Your task to perform on an android device: Where can I buy a nice beach chair? Image 0: 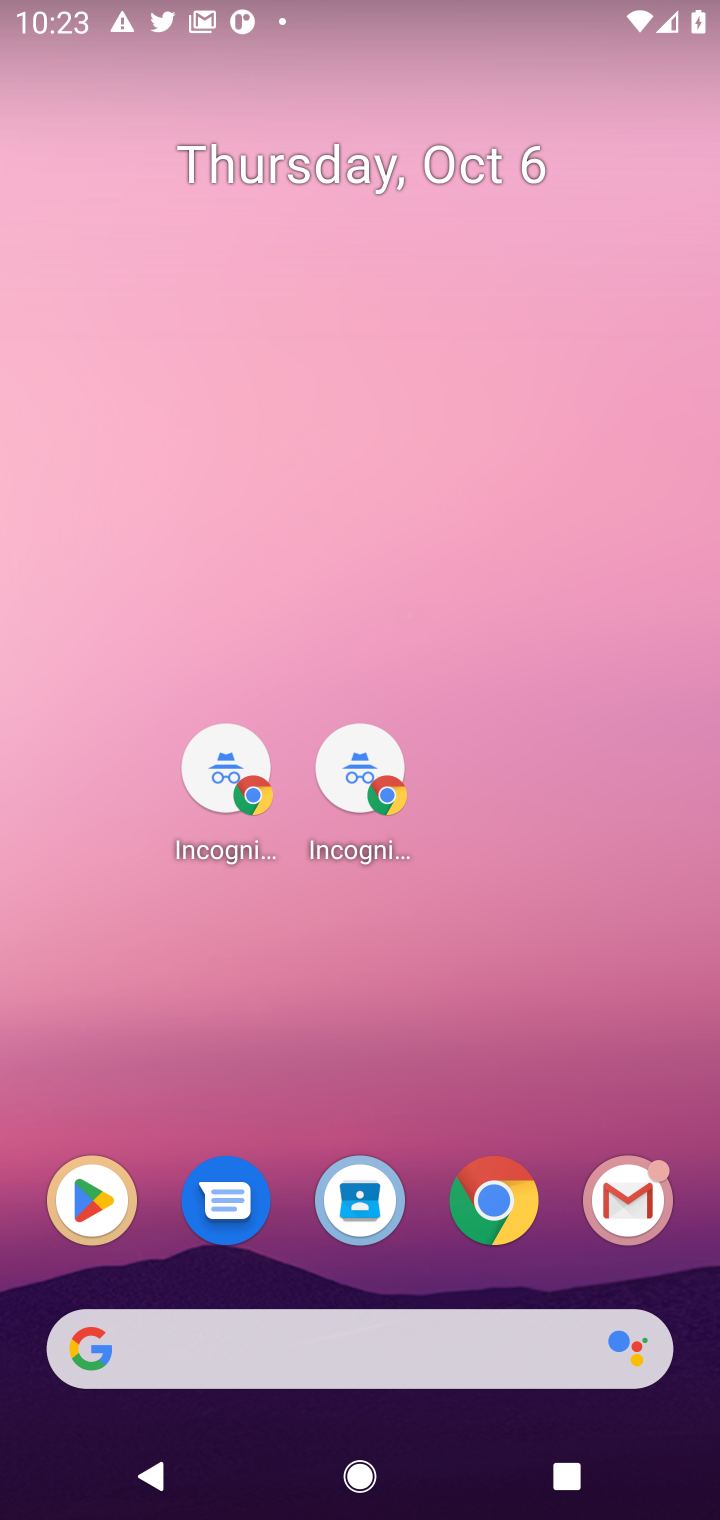
Step 0: click (523, 1214)
Your task to perform on an android device: Where can I buy a nice beach chair? Image 1: 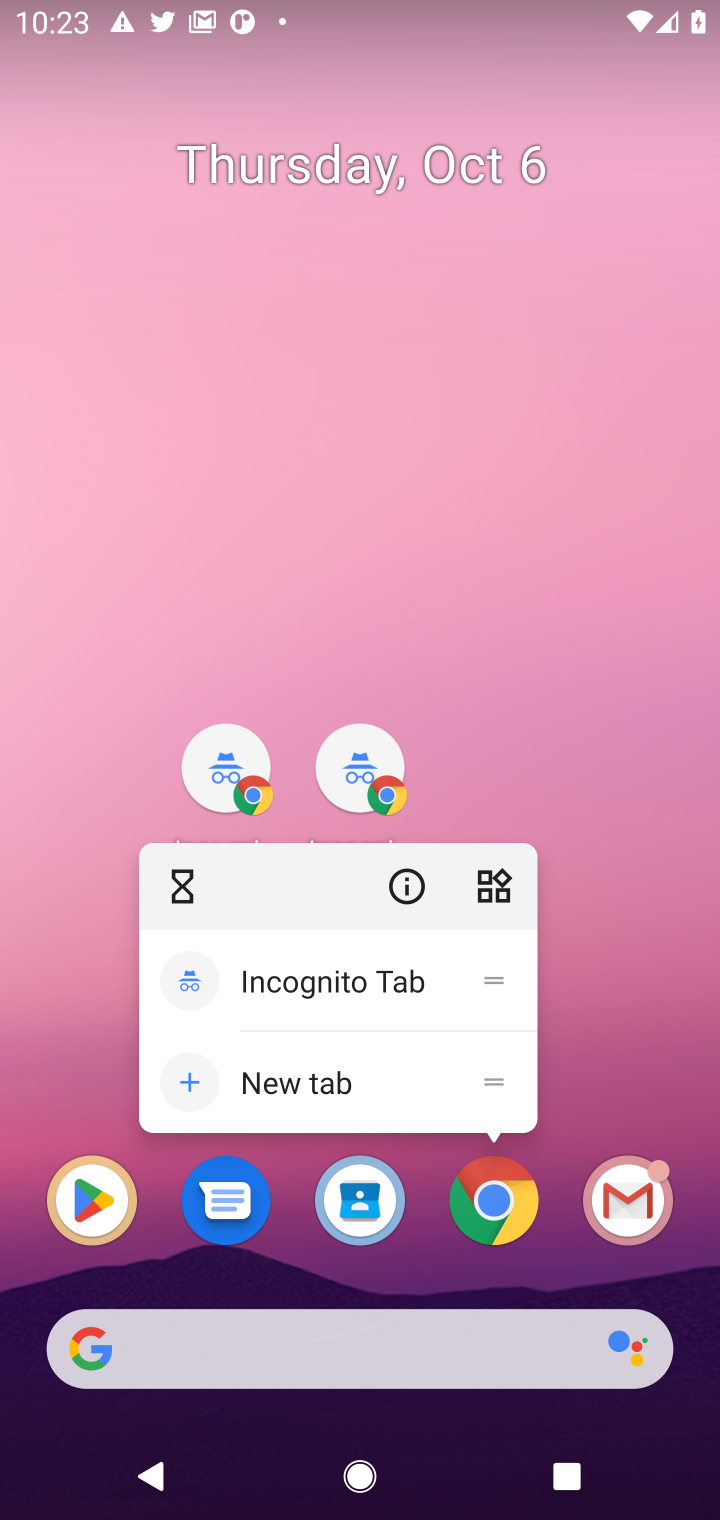
Step 1: press home button
Your task to perform on an android device: Where can I buy a nice beach chair? Image 2: 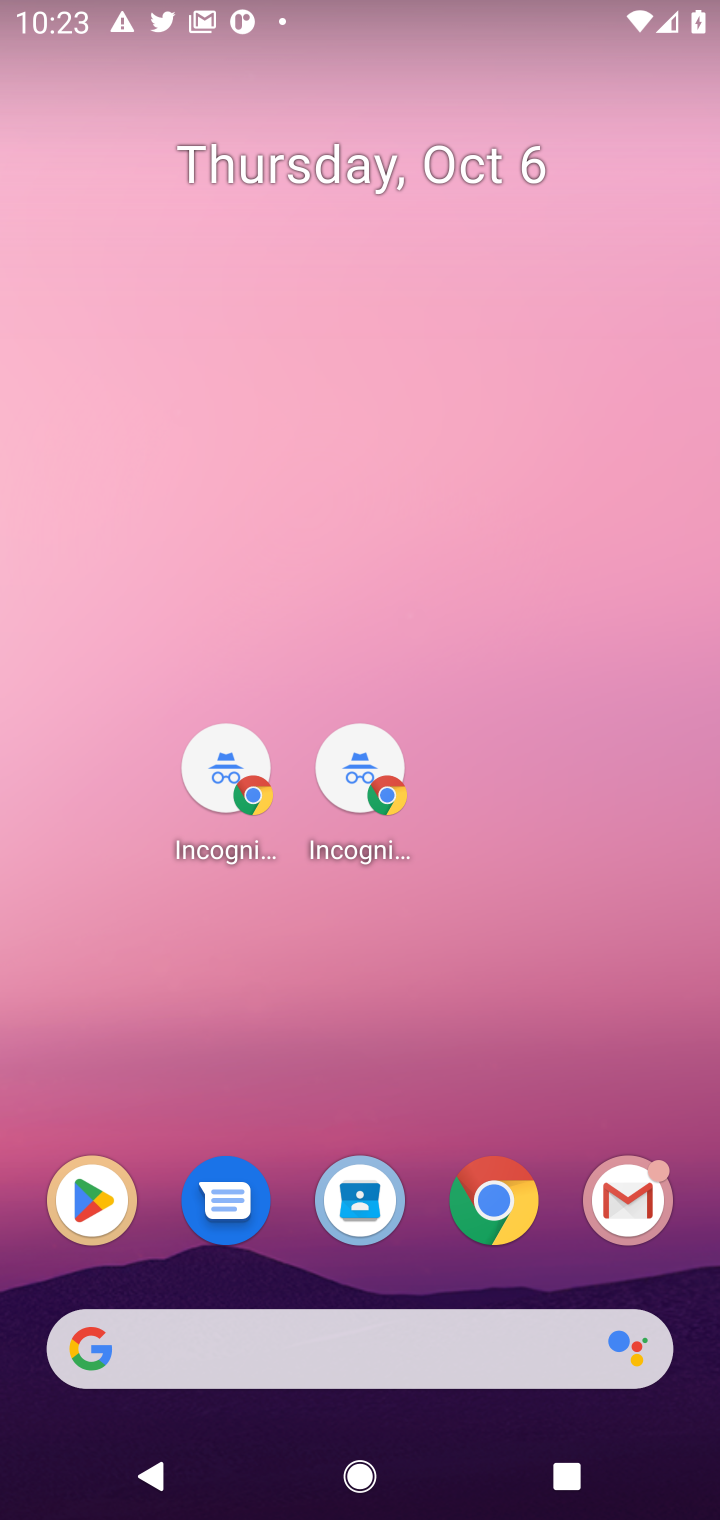
Step 2: press home button
Your task to perform on an android device: Where can I buy a nice beach chair? Image 3: 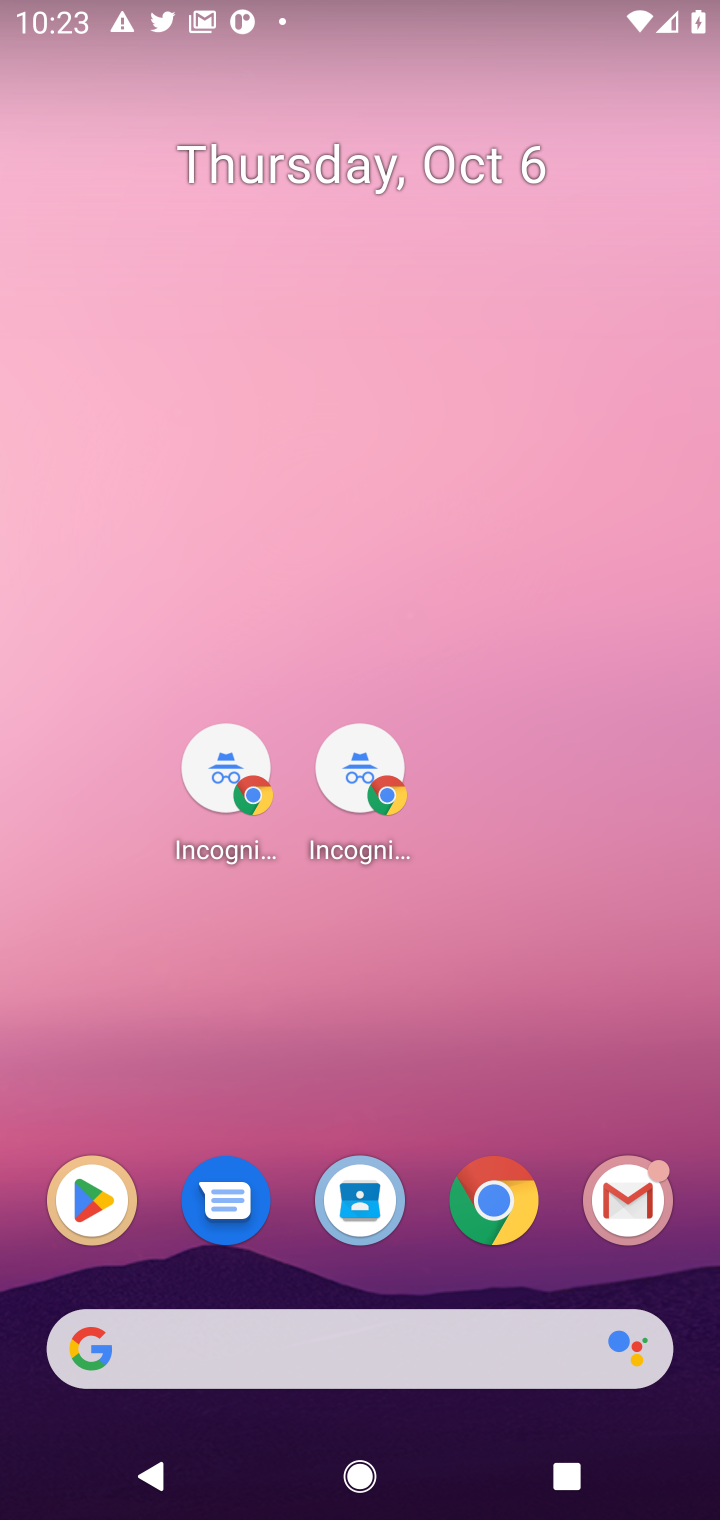
Step 3: click (484, 1183)
Your task to perform on an android device: Where can I buy a nice beach chair? Image 4: 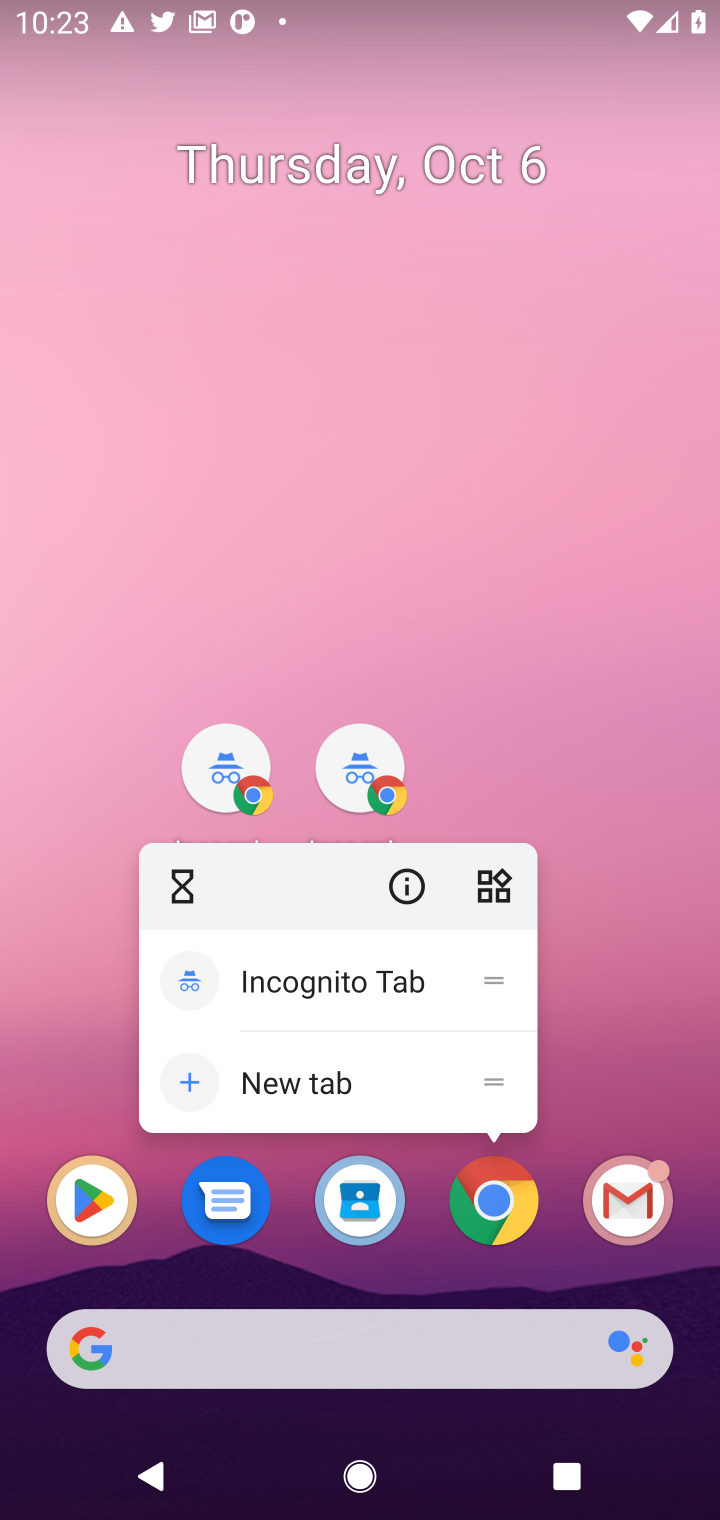
Step 4: click (486, 1187)
Your task to perform on an android device: Where can I buy a nice beach chair? Image 5: 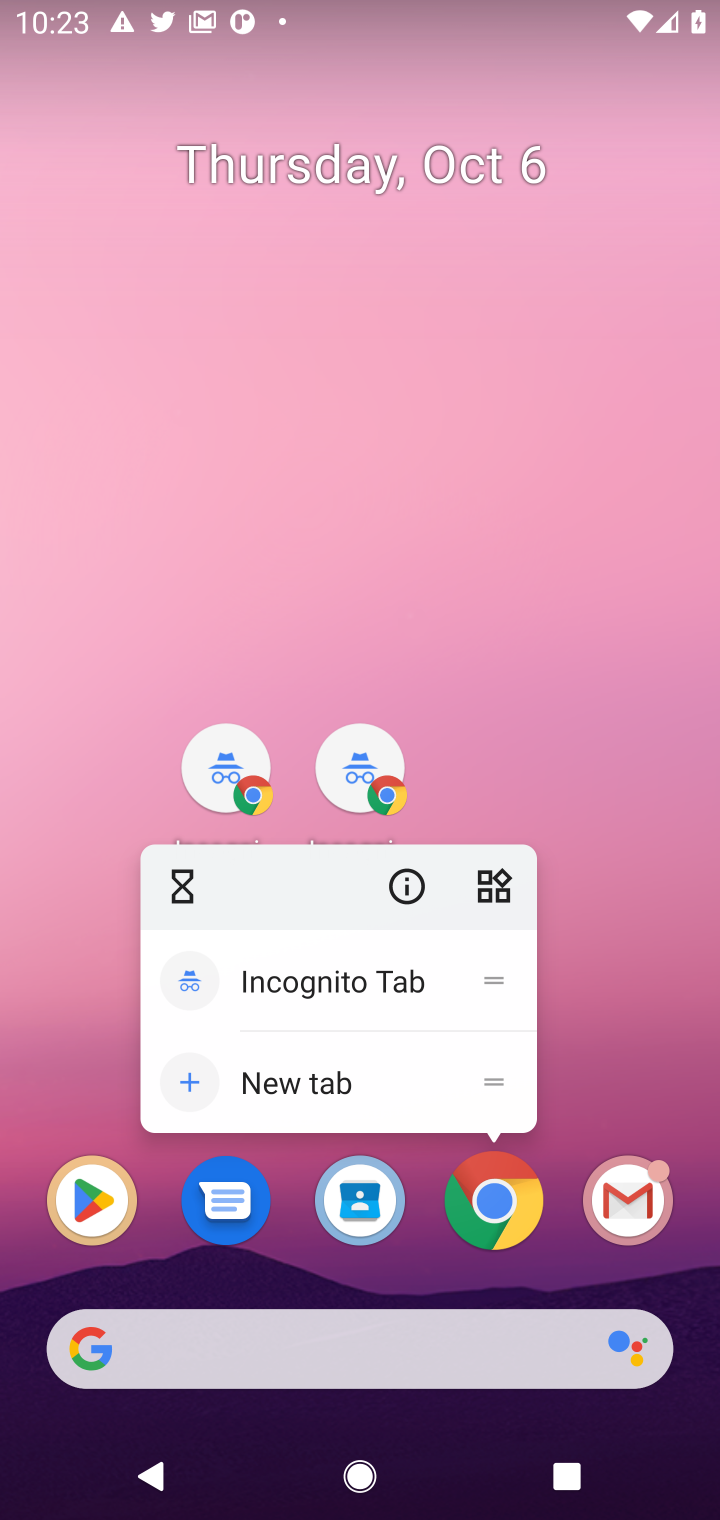
Step 5: press back button
Your task to perform on an android device: Where can I buy a nice beach chair? Image 6: 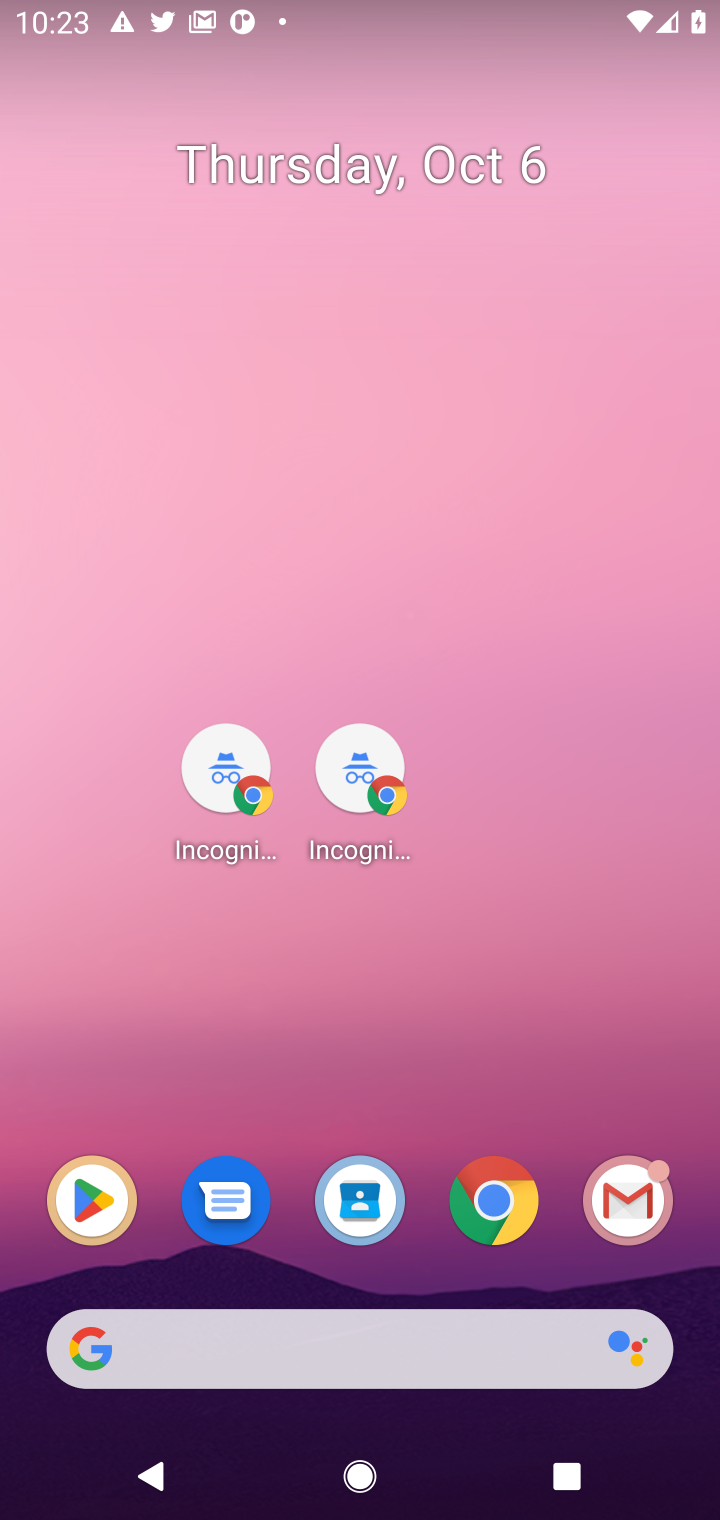
Step 6: press back button
Your task to perform on an android device: Where can I buy a nice beach chair? Image 7: 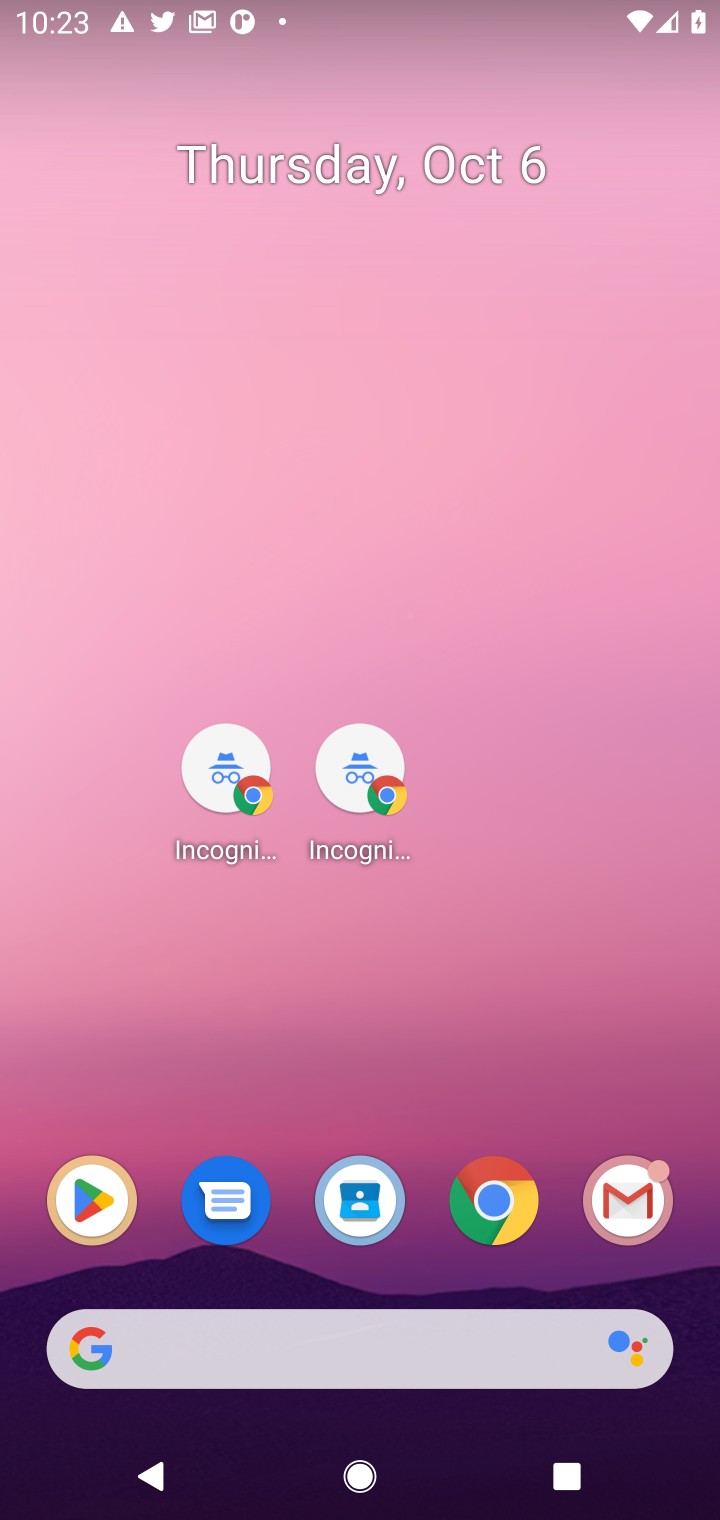
Step 7: press back button
Your task to perform on an android device: Where can I buy a nice beach chair? Image 8: 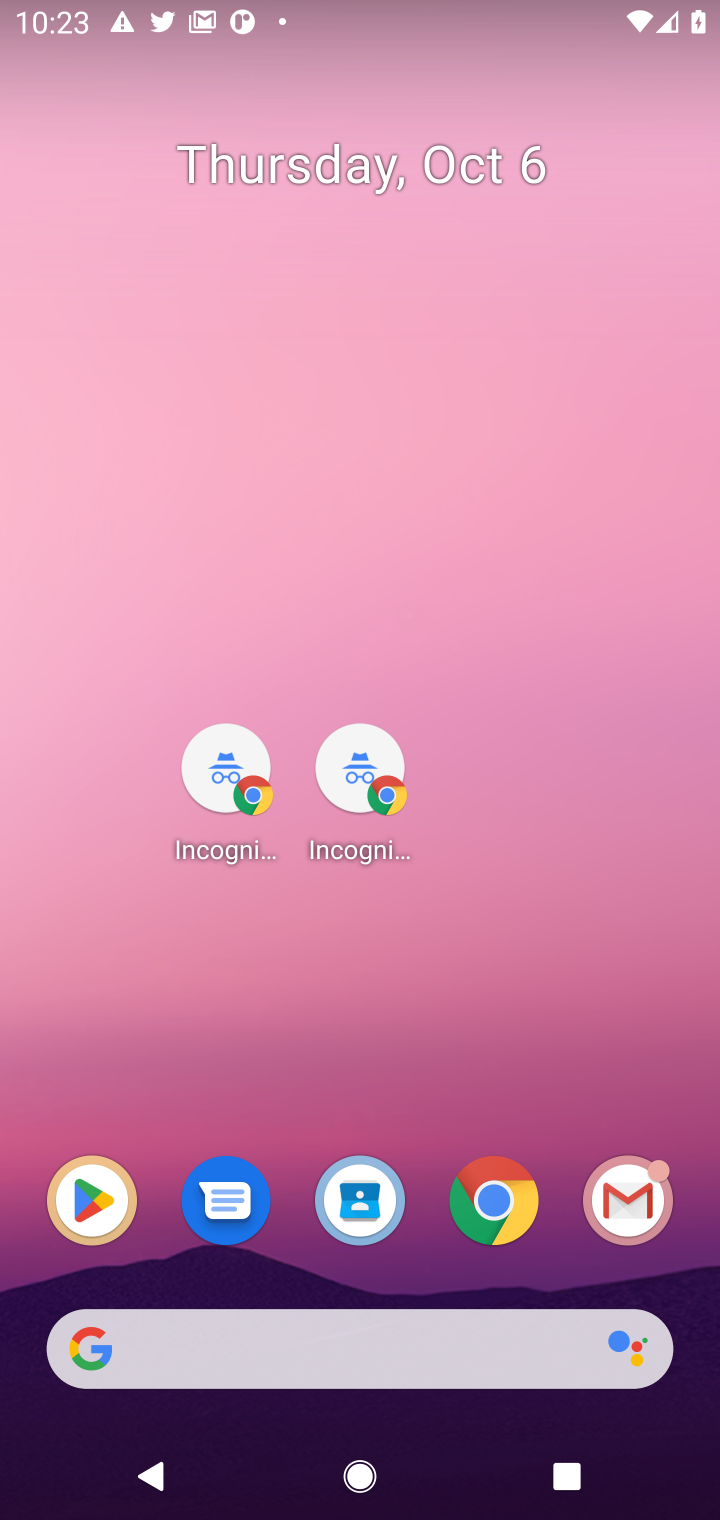
Step 8: press home button
Your task to perform on an android device: Where can I buy a nice beach chair? Image 9: 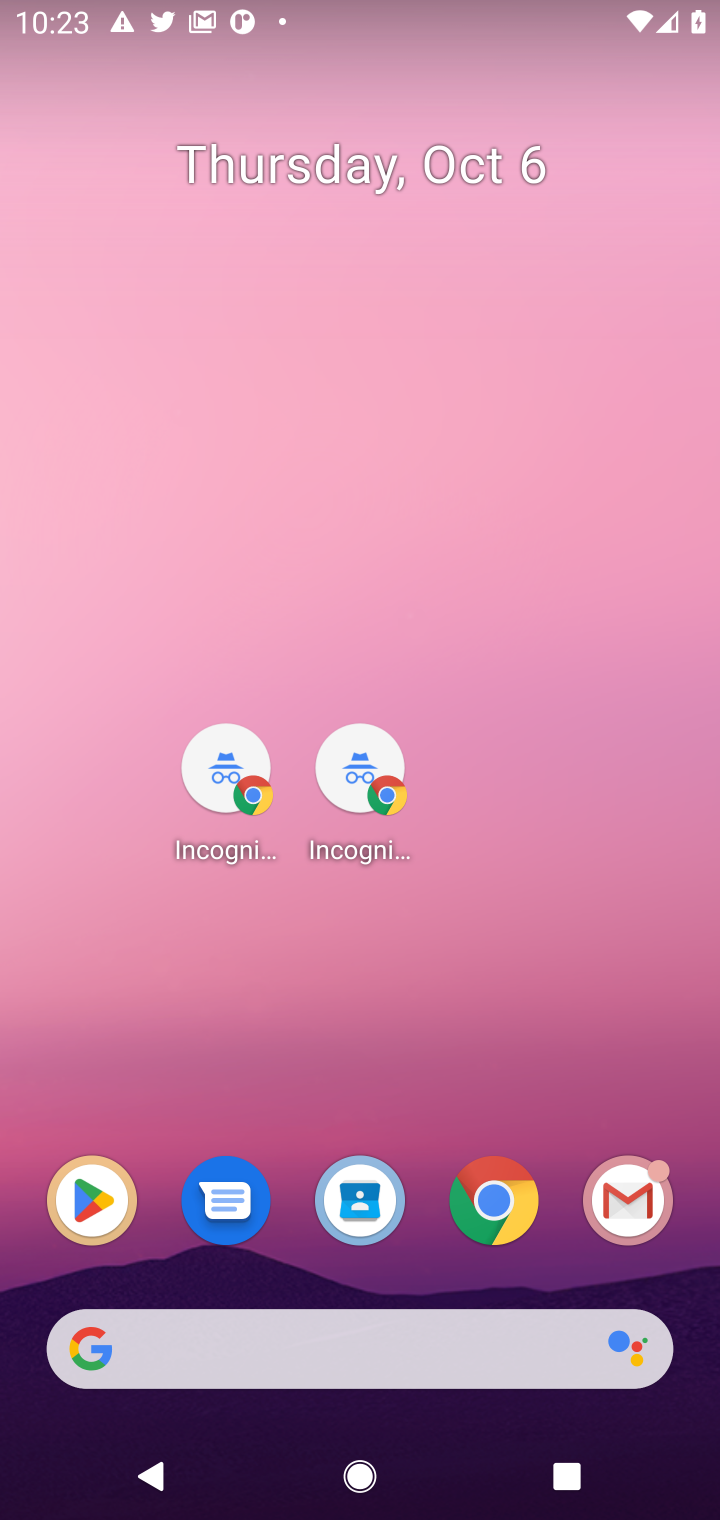
Step 9: click (523, 1200)
Your task to perform on an android device: Where can I buy a nice beach chair? Image 10: 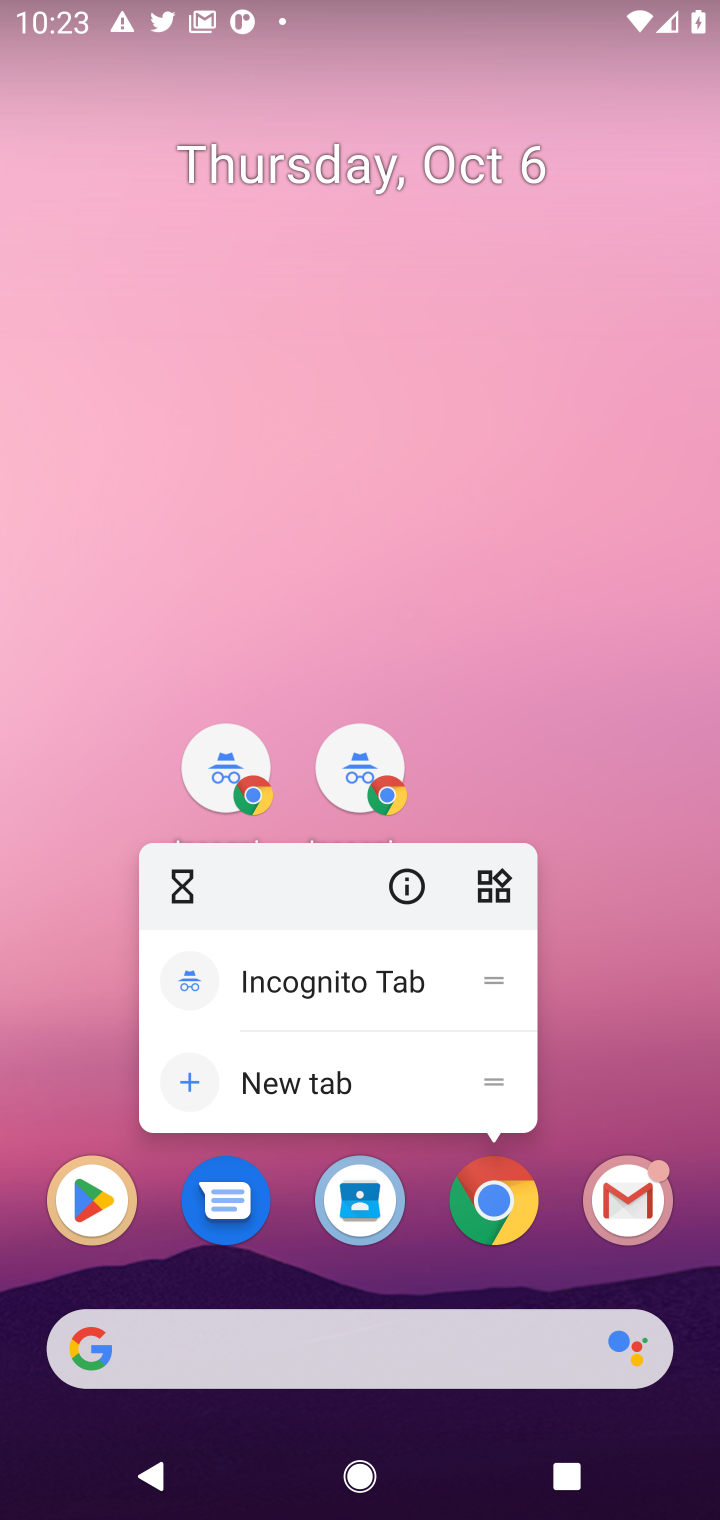
Step 10: press home button
Your task to perform on an android device: Where can I buy a nice beach chair? Image 11: 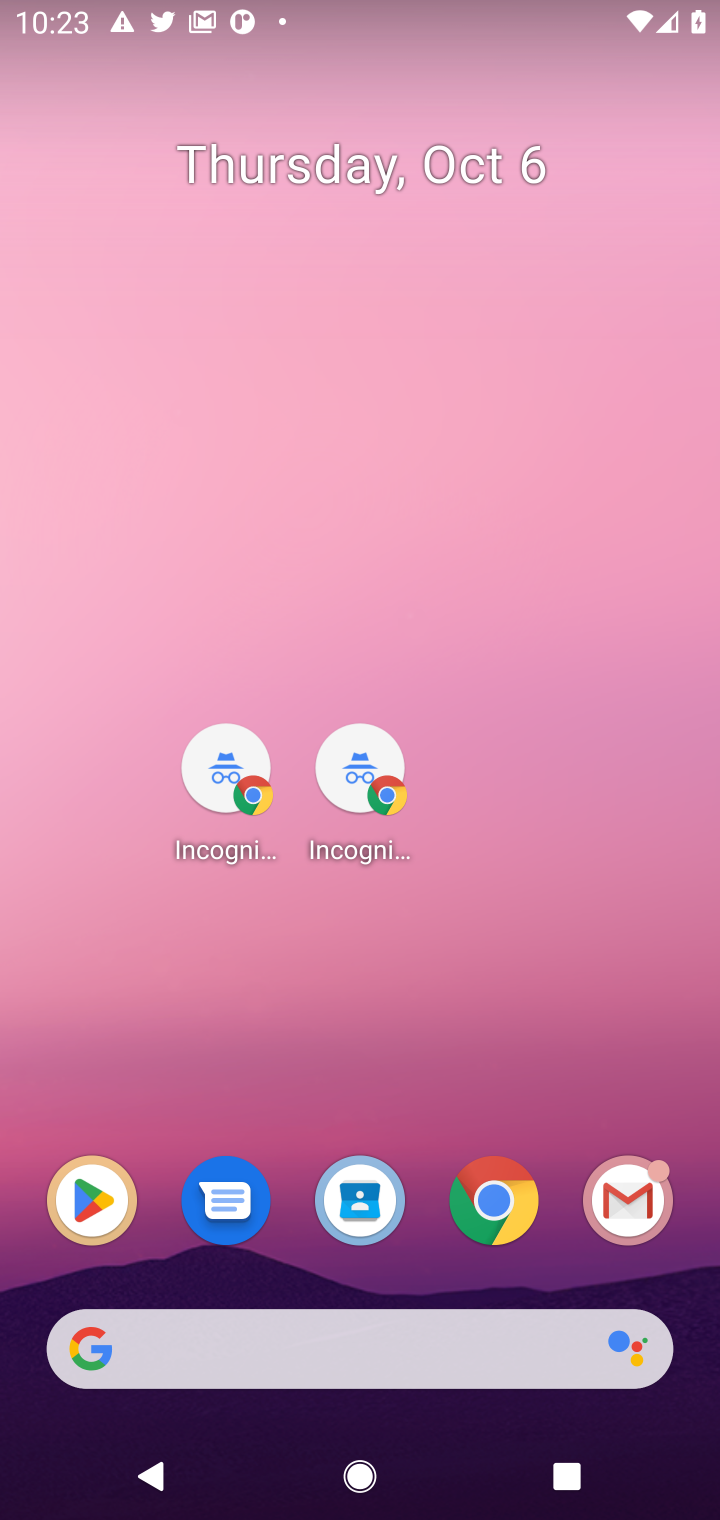
Step 11: press back button
Your task to perform on an android device: Where can I buy a nice beach chair? Image 12: 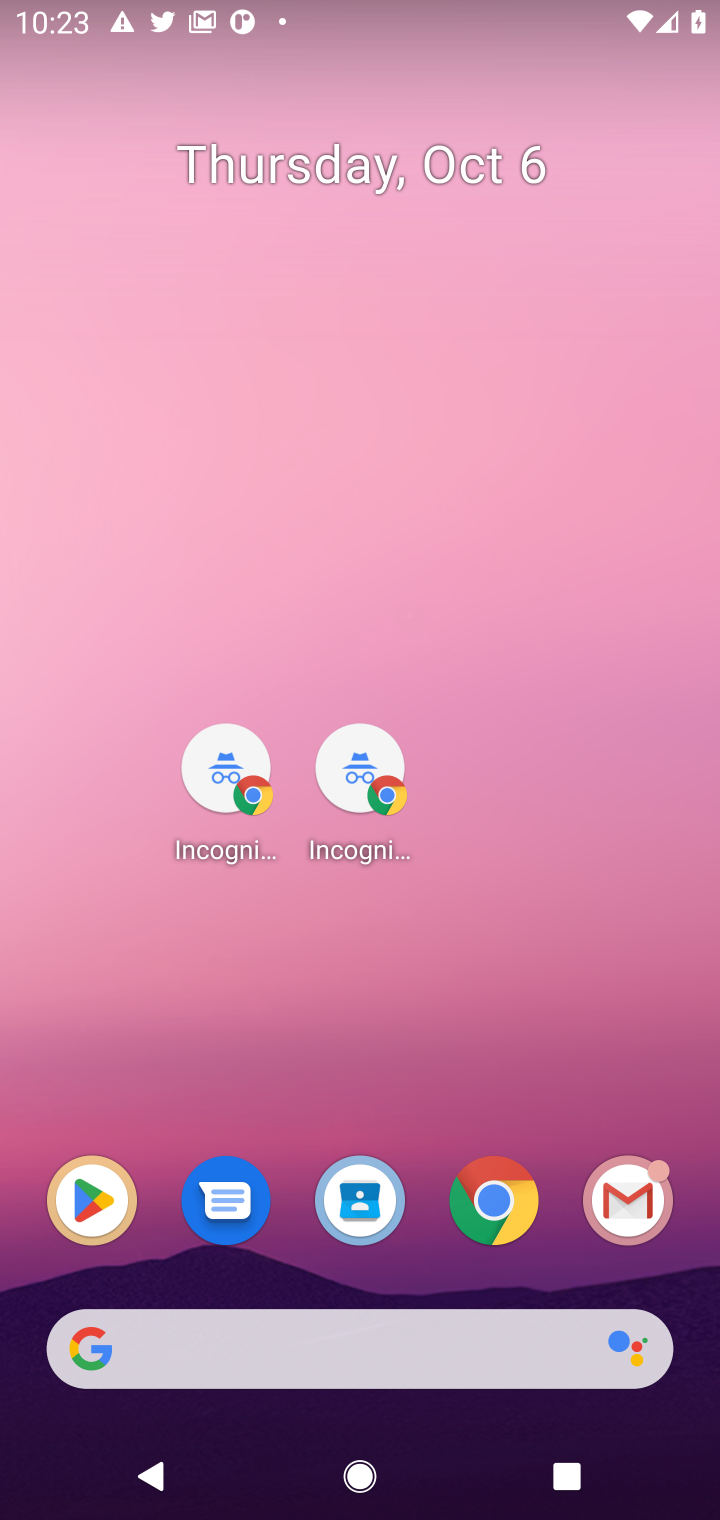
Step 12: press back button
Your task to perform on an android device: Where can I buy a nice beach chair? Image 13: 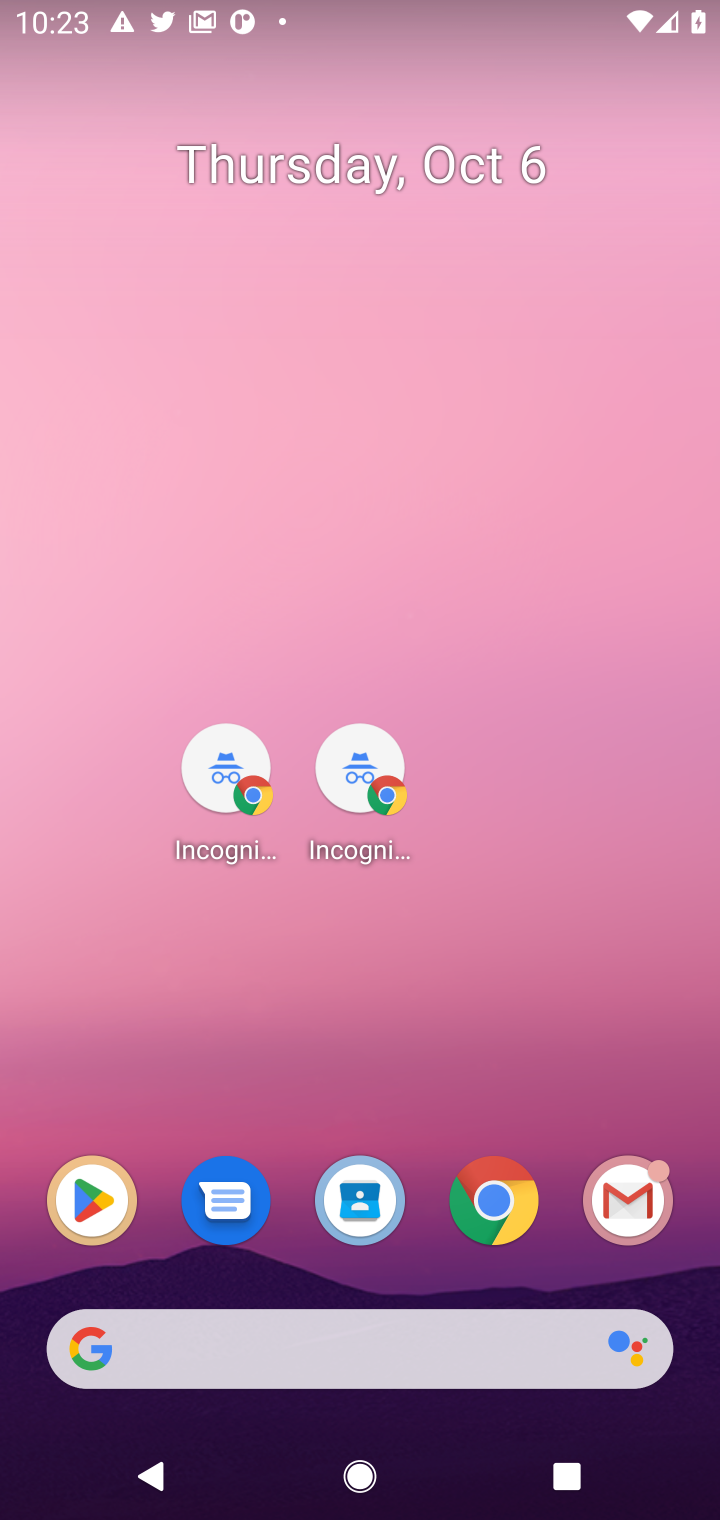
Step 13: click (518, 1190)
Your task to perform on an android device: Where can I buy a nice beach chair? Image 14: 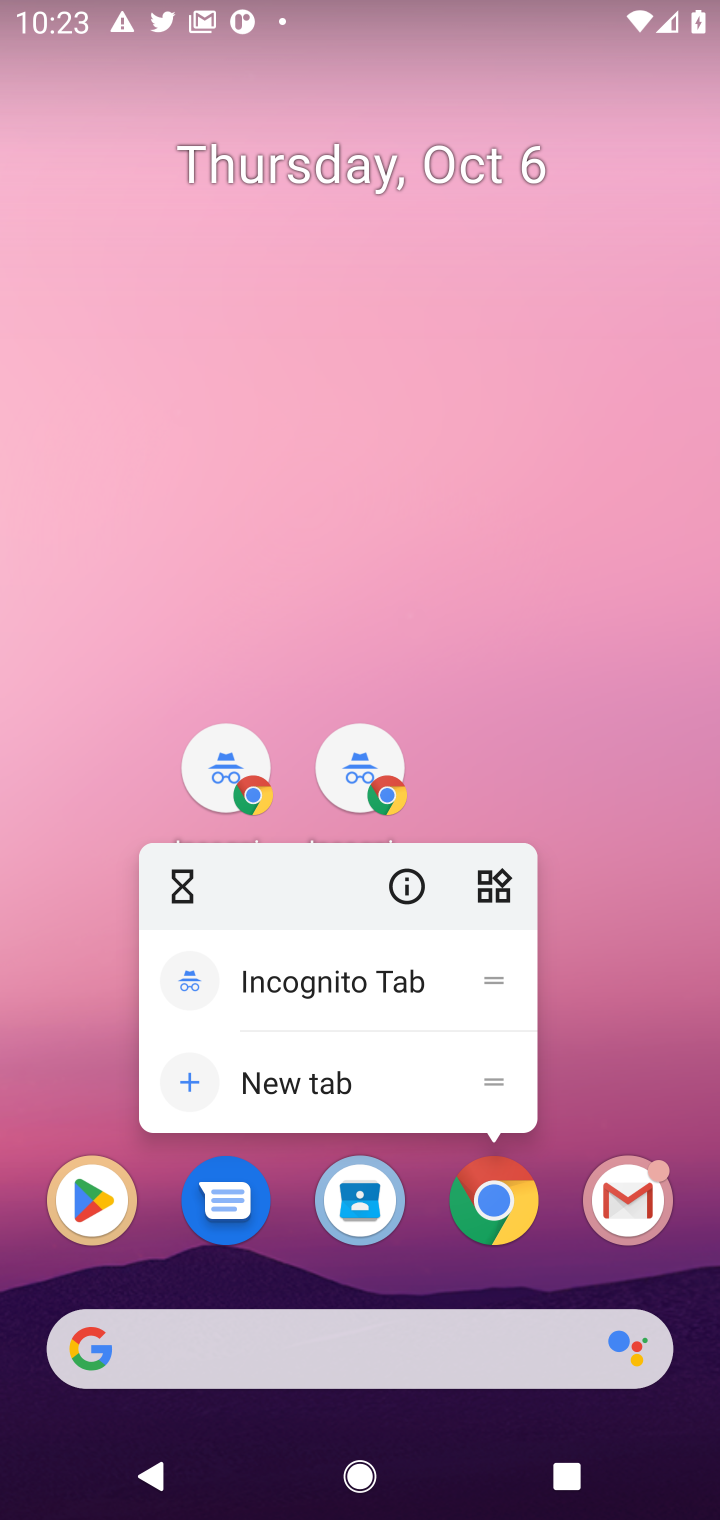
Step 14: click (493, 1213)
Your task to perform on an android device: Where can I buy a nice beach chair? Image 15: 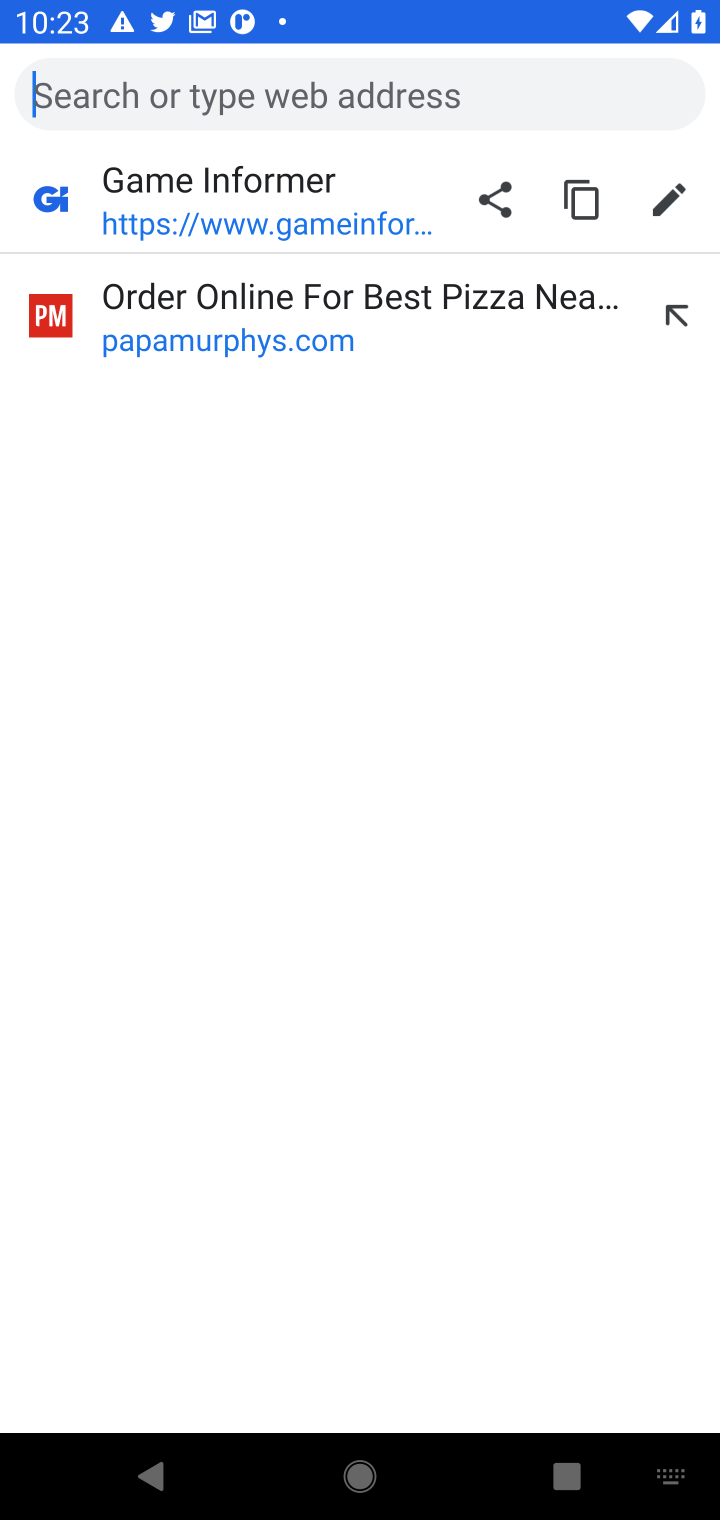
Step 15: type "where can i buy nice beach chair"
Your task to perform on an android device: Where can I buy a nice beach chair? Image 16: 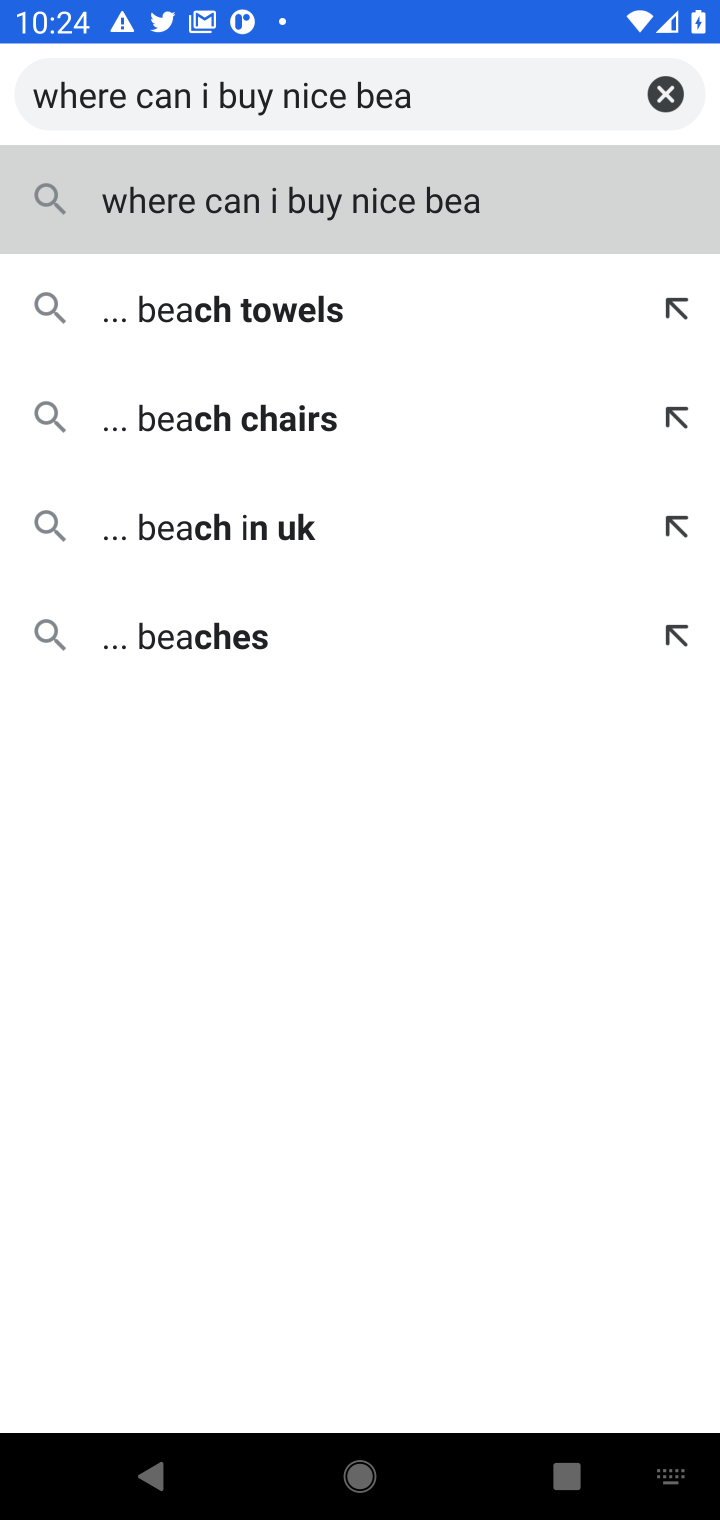
Step 16: click (346, 215)
Your task to perform on an android device: Where can I buy a nice beach chair? Image 17: 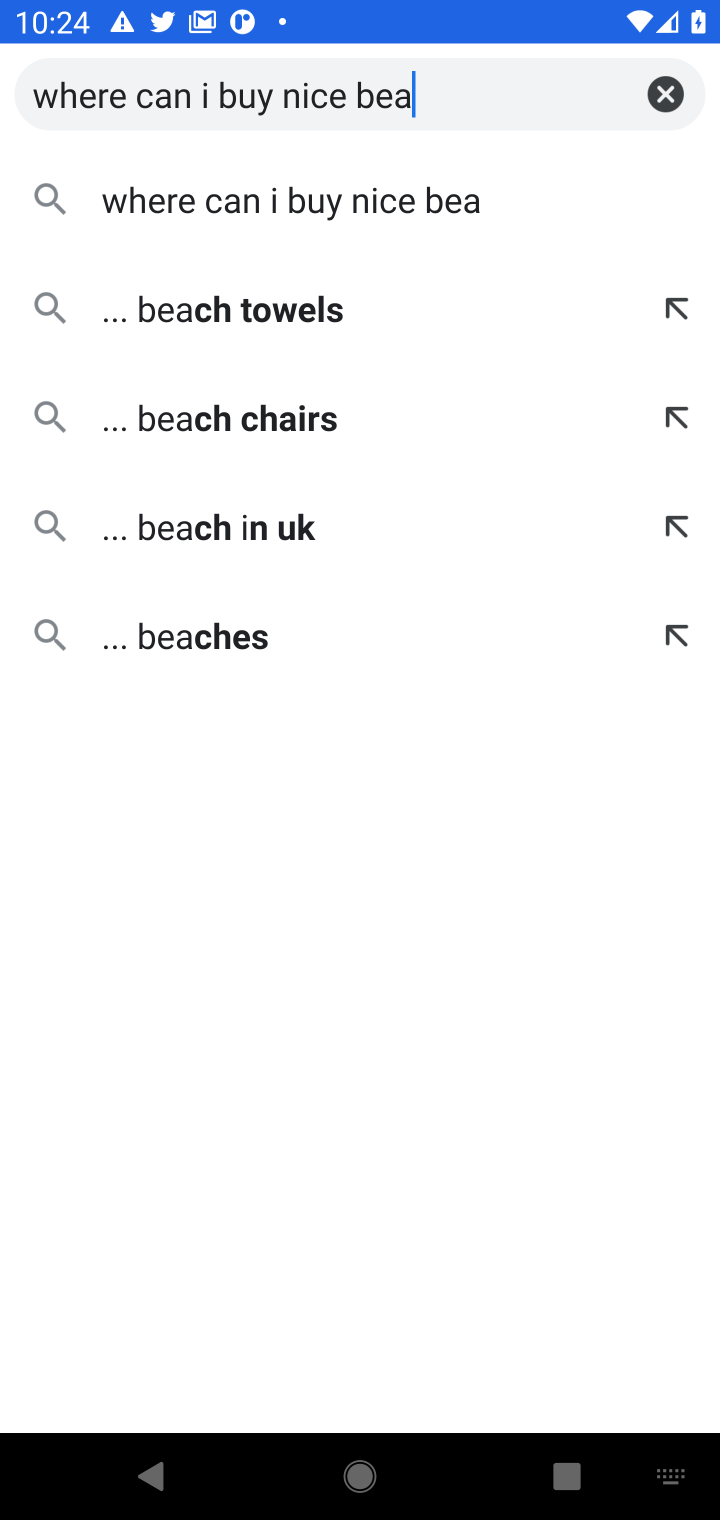
Step 17: click (204, 411)
Your task to perform on an android device: Where can I buy a nice beach chair? Image 18: 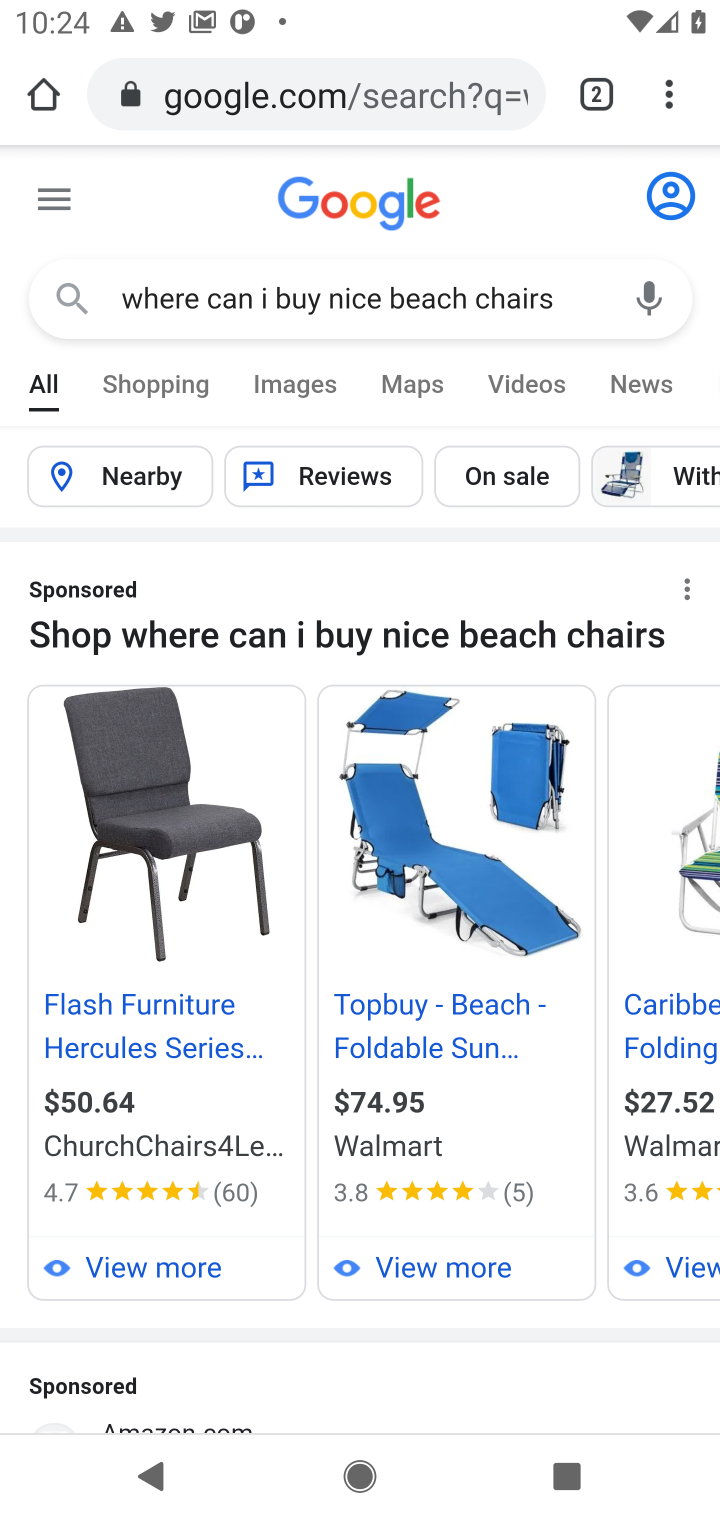
Step 18: drag from (359, 1198) to (481, 782)
Your task to perform on an android device: Where can I buy a nice beach chair? Image 19: 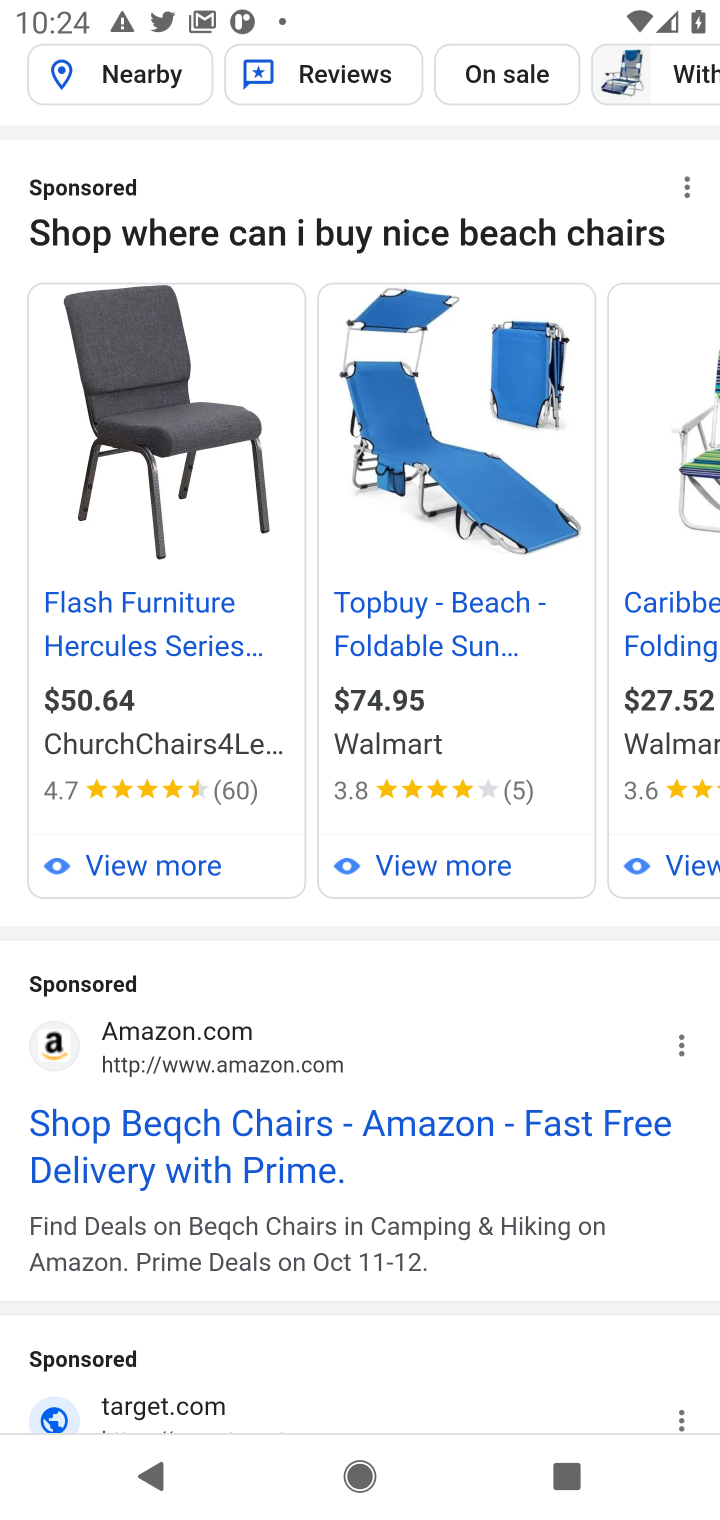
Step 19: drag from (361, 930) to (408, 608)
Your task to perform on an android device: Where can I buy a nice beach chair? Image 20: 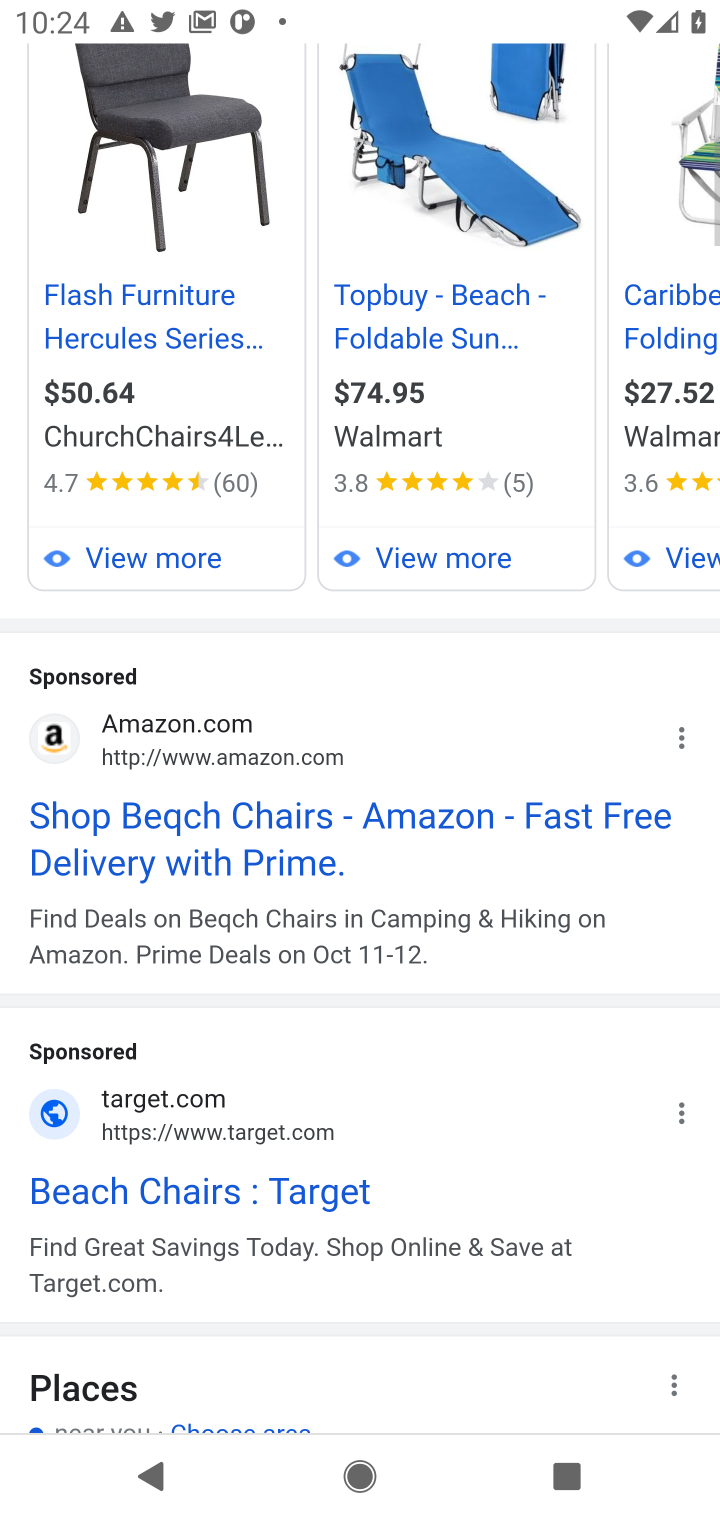
Step 20: drag from (347, 903) to (417, 527)
Your task to perform on an android device: Where can I buy a nice beach chair? Image 21: 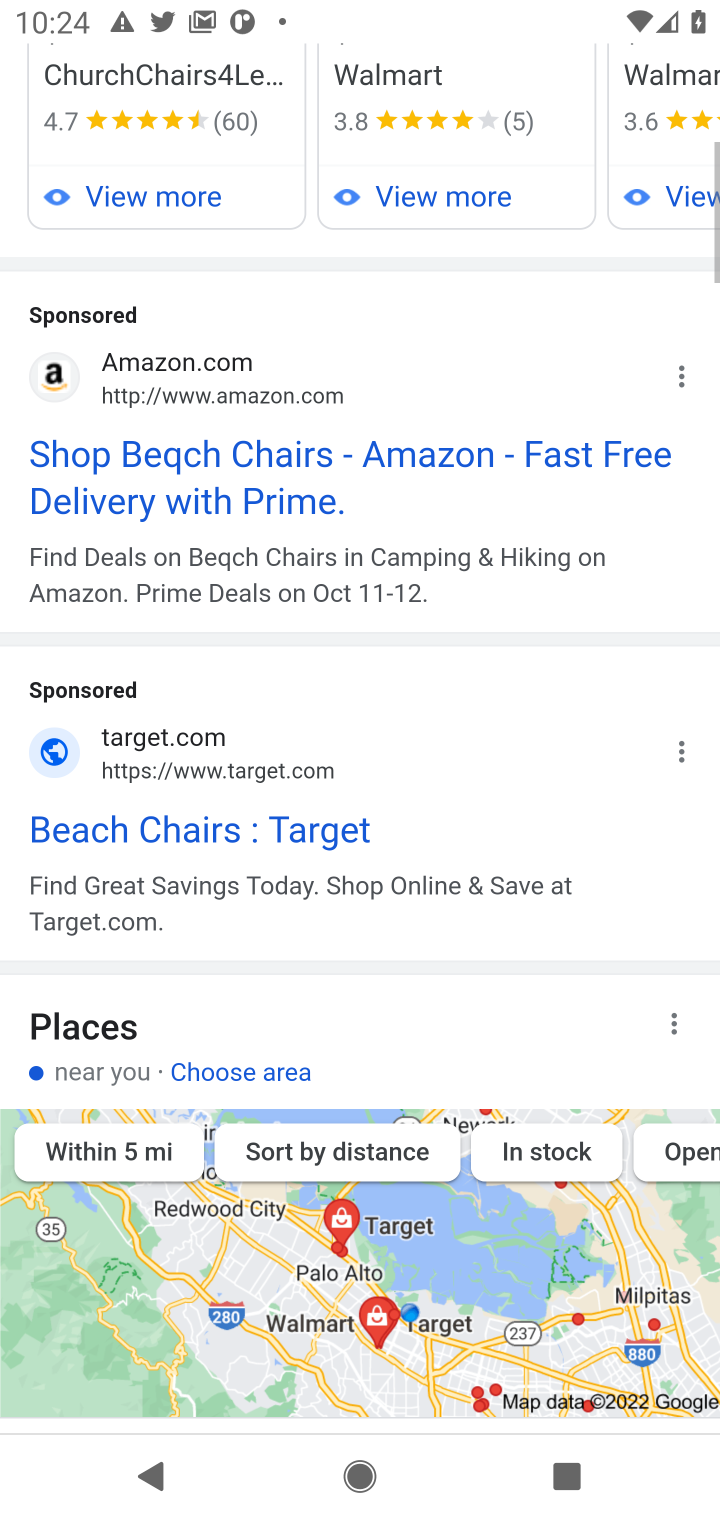
Step 21: drag from (330, 806) to (363, 570)
Your task to perform on an android device: Where can I buy a nice beach chair? Image 22: 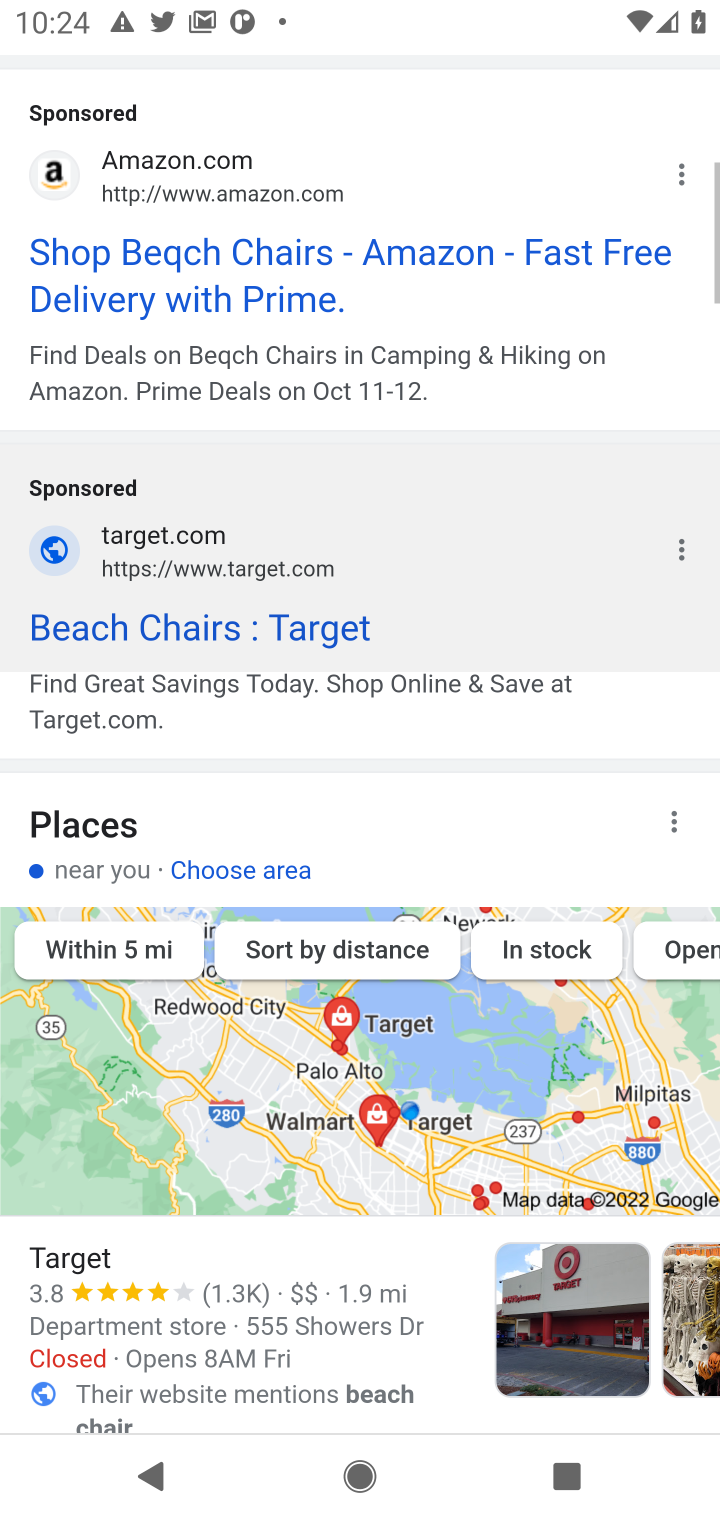
Step 22: drag from (376, 419) to (384, 1082)
Your task to perform on an android device: Where can I buy a nice beach chair? Image 23: 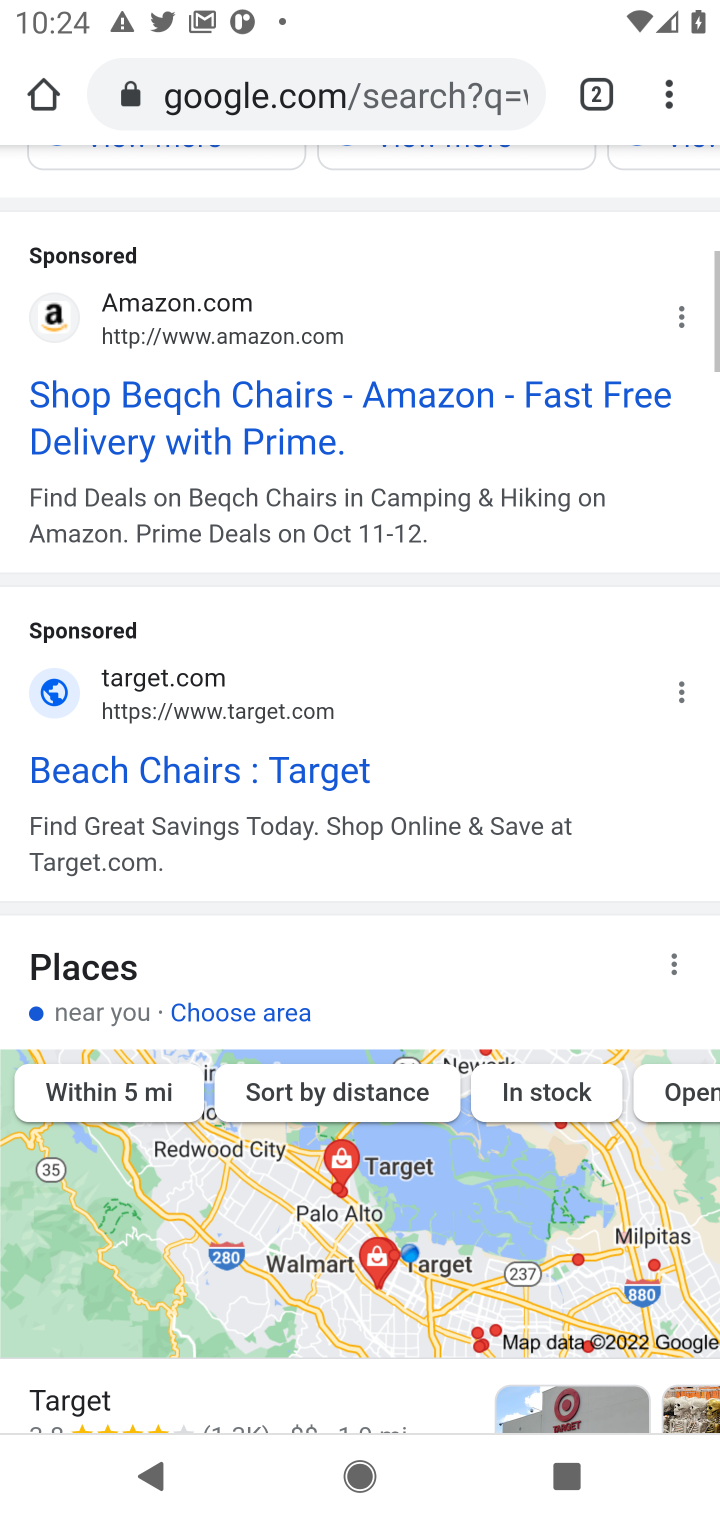
Step 23: drag from (384, 490) to (425, 1193)
Your task to perform on an android device: Where can I buy a nice beach chair? Image 24: 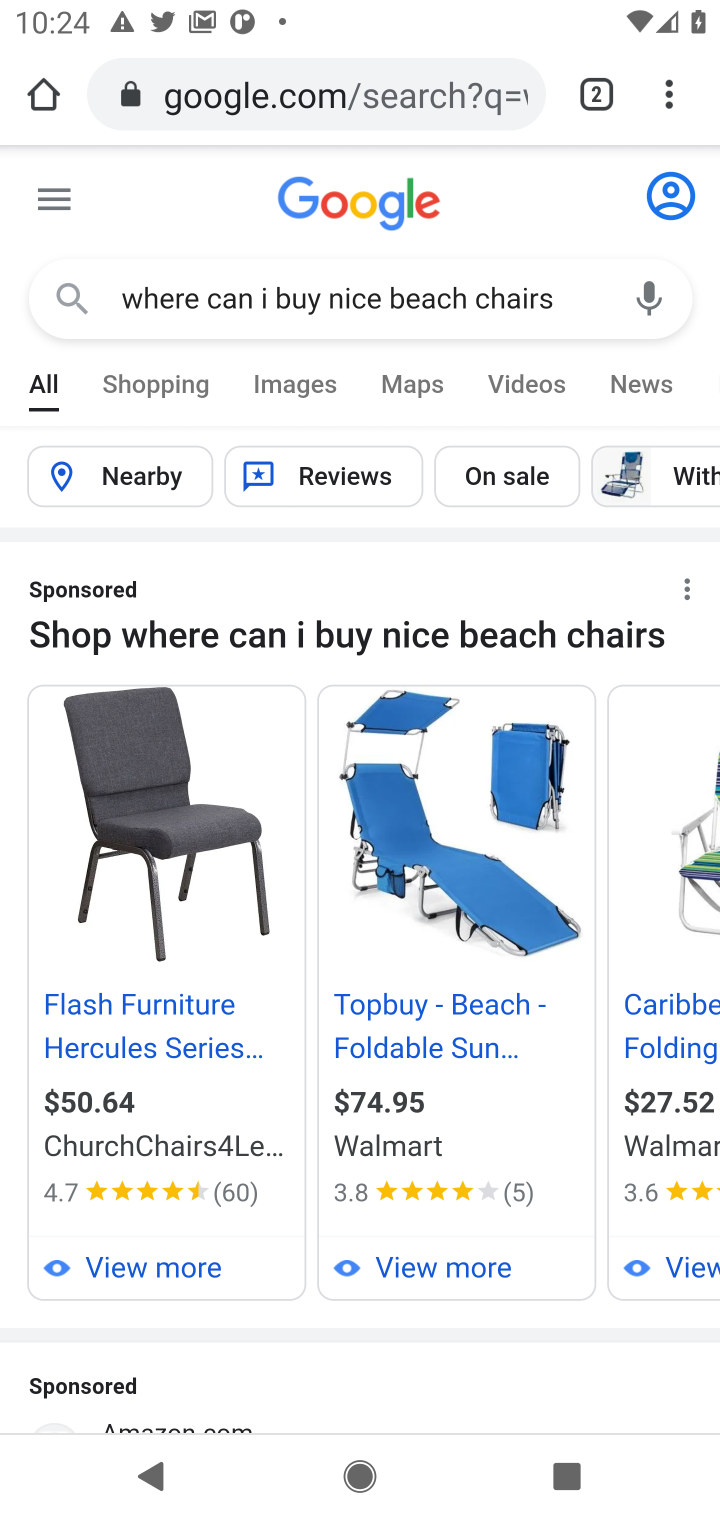
Step 24: drag from (374, 1086) to (597, 360)
Your task to perform on an android device: Where can I buy a nice beach chair? Image 25: 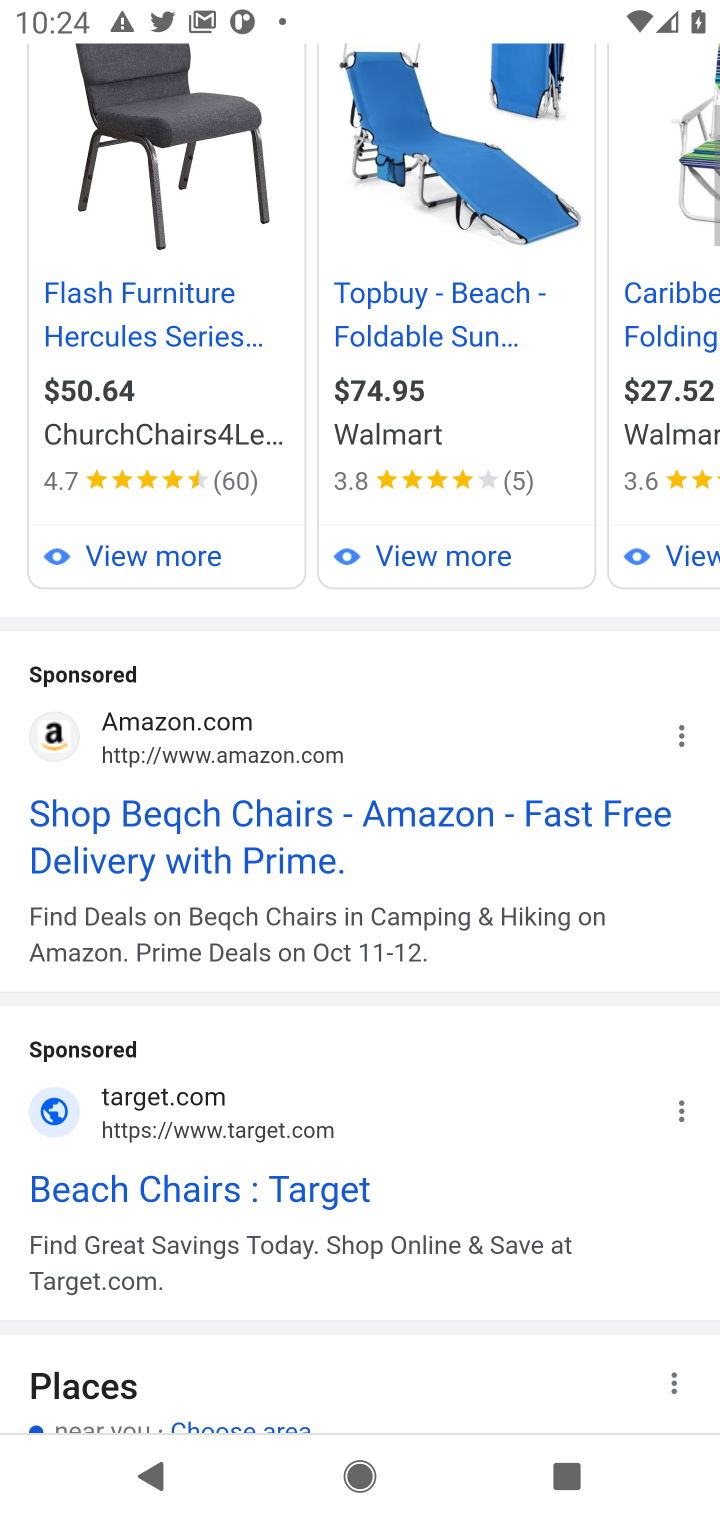
Step 25: drag from (346, 1238) to (465, 591)
Your task to perform on an android device: Where can I buy a nice beach chair? Image 26: 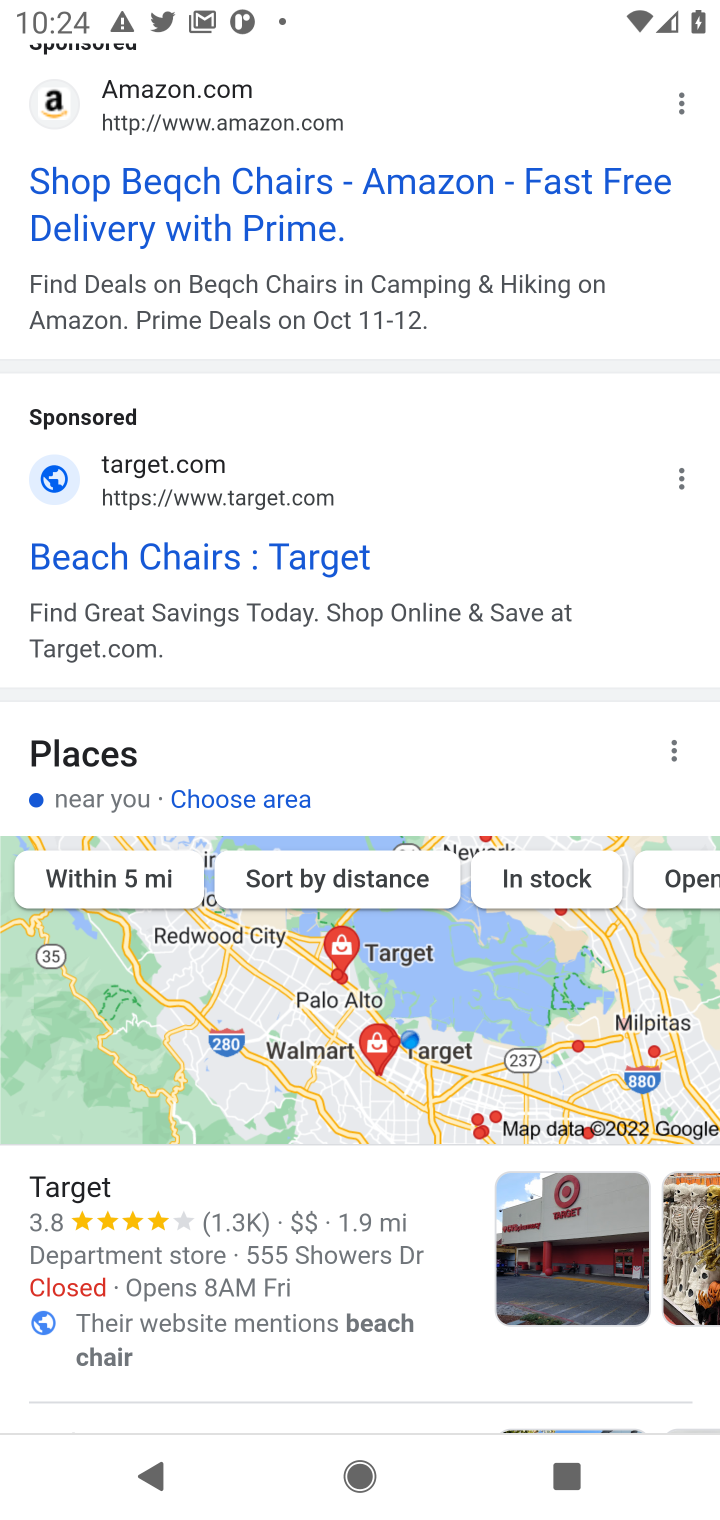
Step 26: drag from (359, 1220) to (525, 530)
Your task to perform on an android device: Where can I buy a nice beach chair? Image 27: 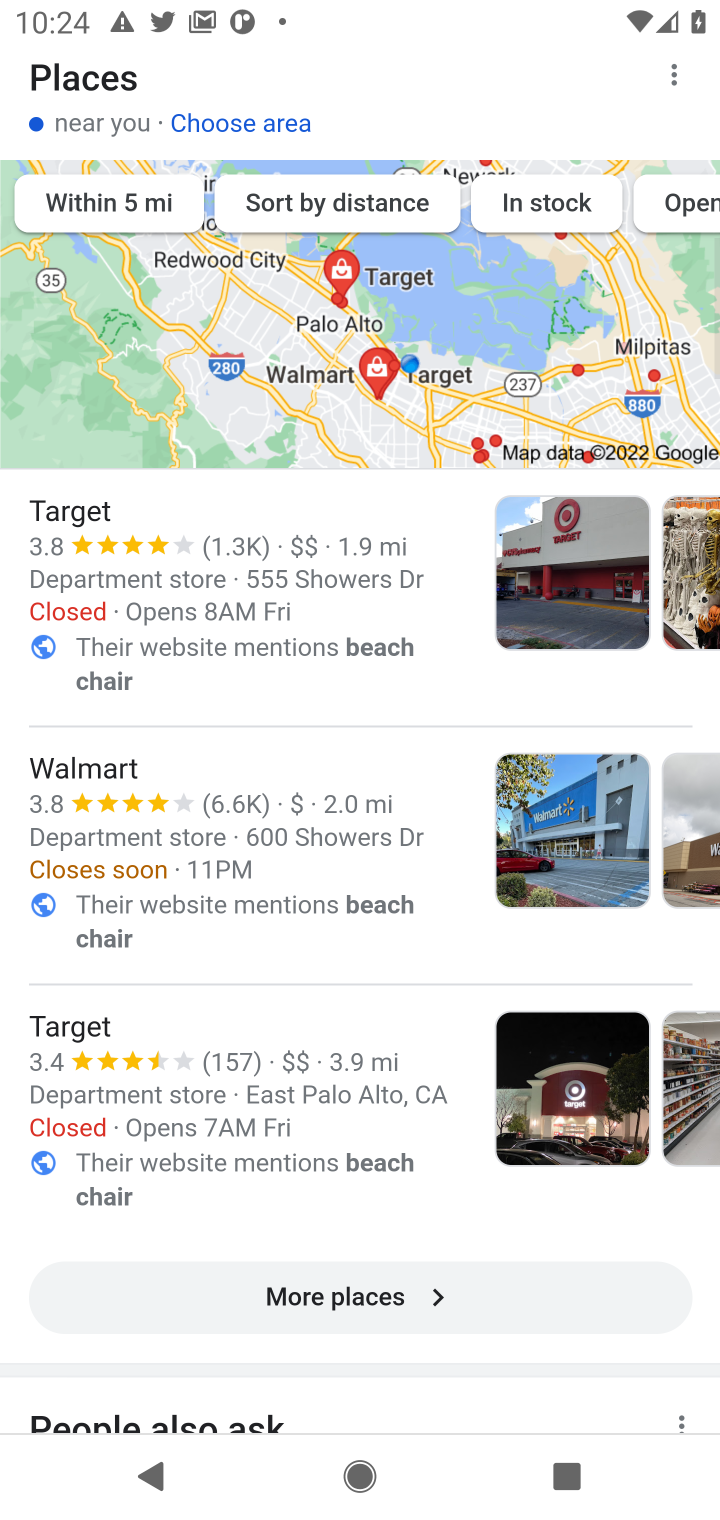
Step 27: drag from (220, 1094) to (434, 460)
Your task to perform on an android device: Where can I buy a nice beach chair? Image 28: 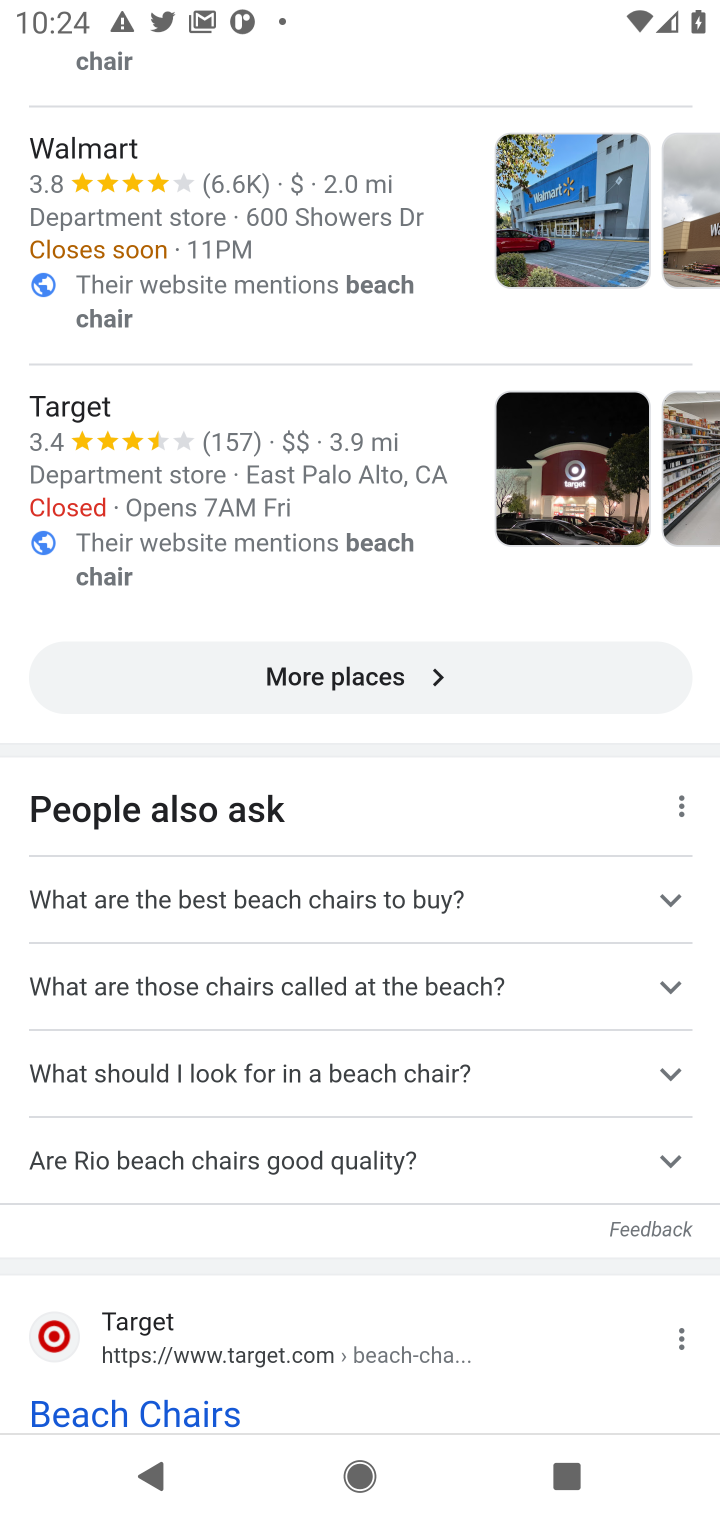
Step 28: click (183, 894)
Your task to perform on an android device: Where can I buy a nice beach chair? Image 29: 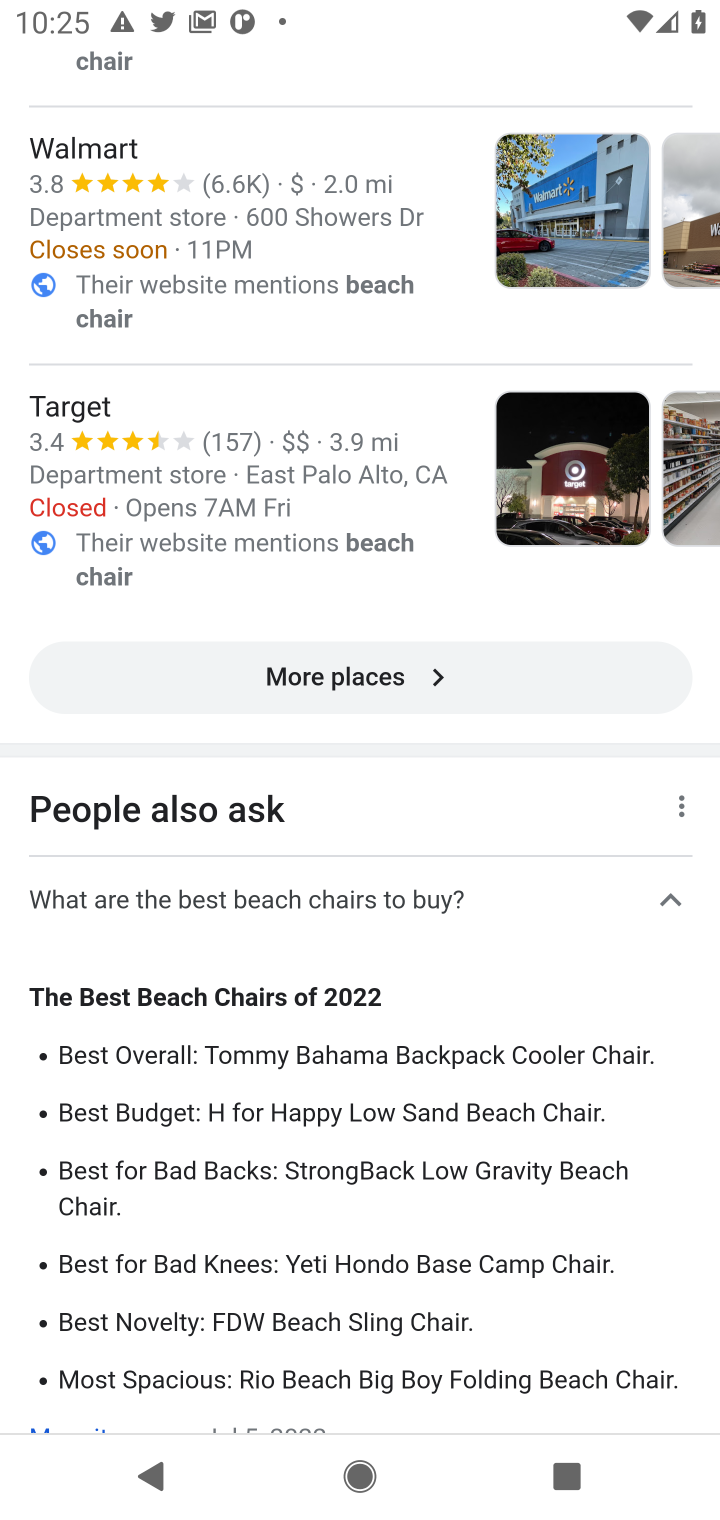
Step 29: drag from (361, 1086) to (439, 766)
Your task to perform on an android device: Where can I buy a nice beach chair? Image 30: 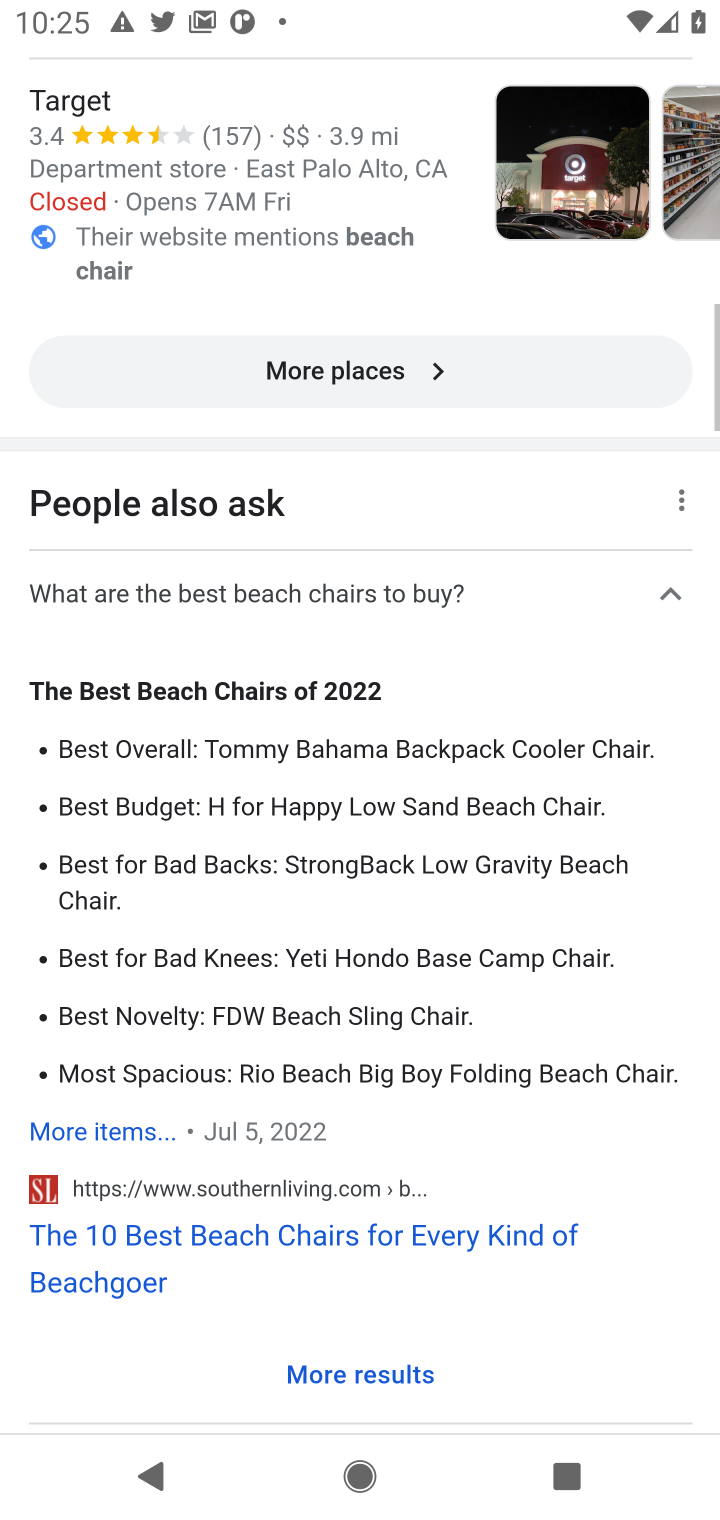
Step 30: drag from (346, 1195) to (426, 706)
Your task to perform on an android device: Where can I buy a nice beach chair? Image 31: 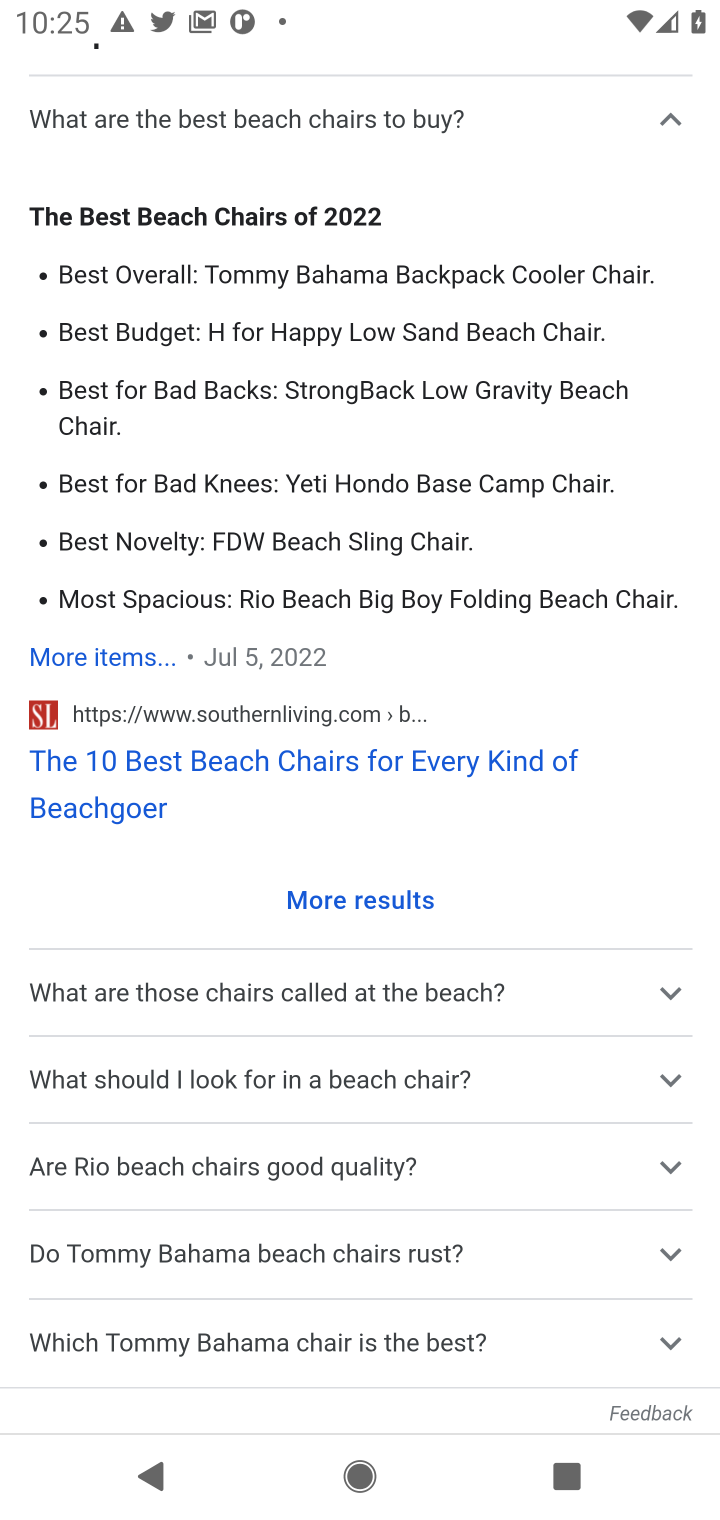
Step 31: click (281, 759)
Your task to perform on an android device: Where can I buy a nice beach chair? Image 32: 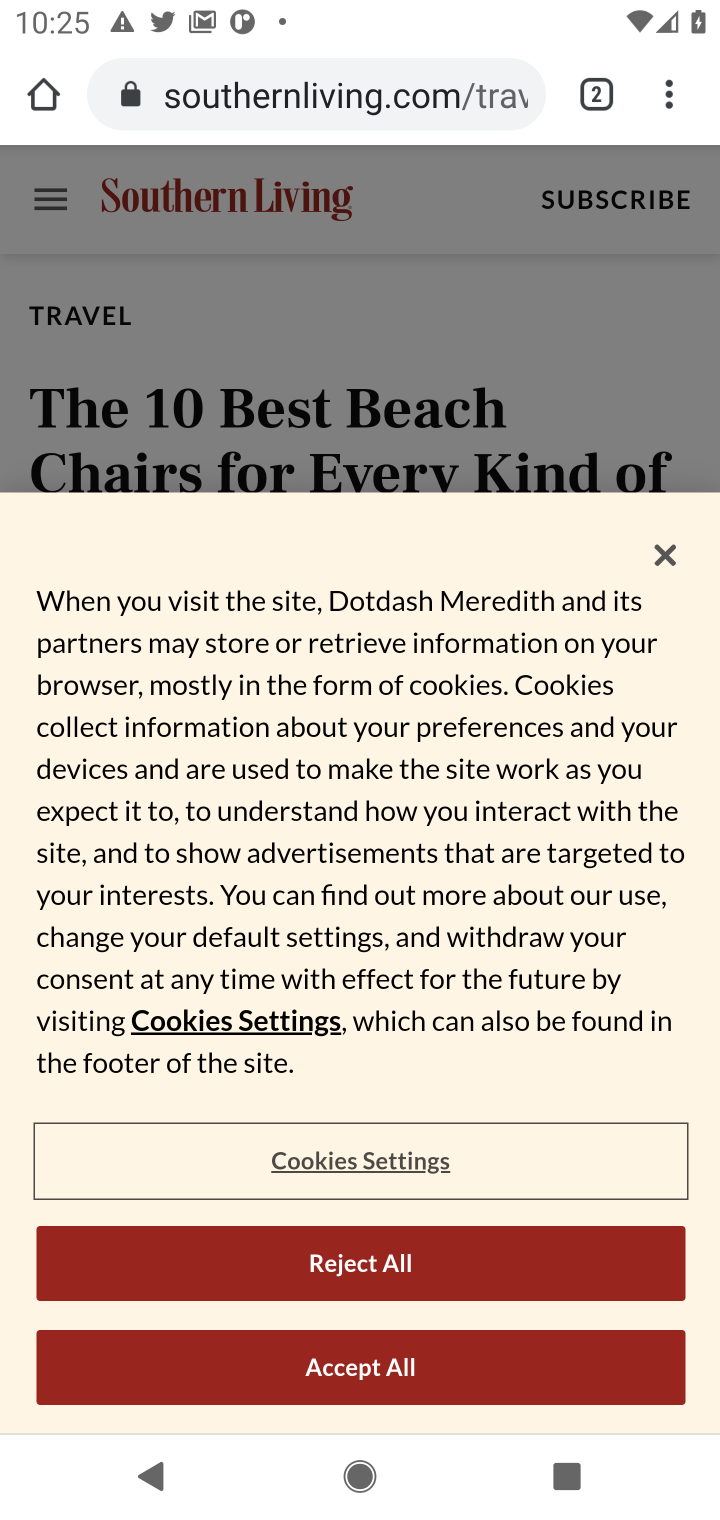
Step 32: click (663, 552)
Your task to perform on an android device: Where can I buy a nice beach chair? Image 33: 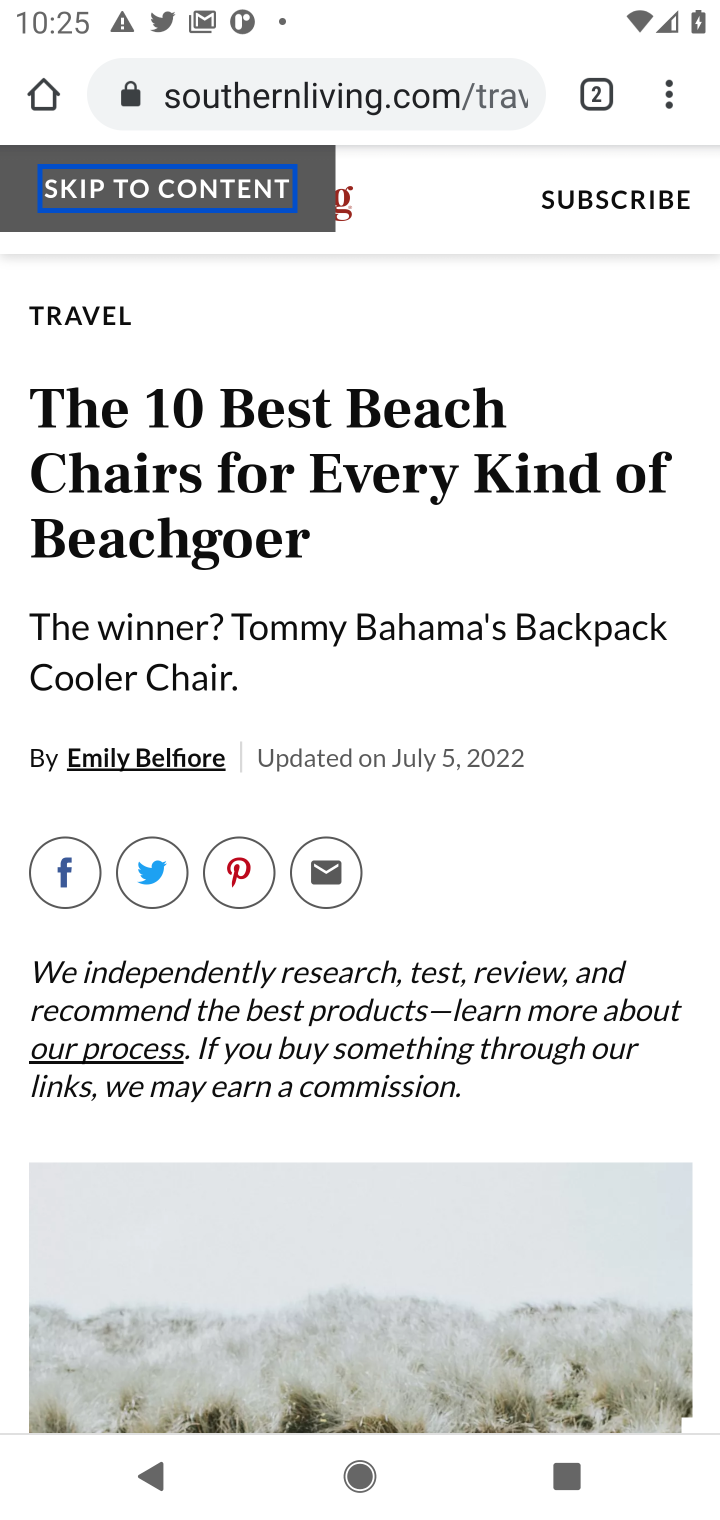
Step 33: task complete